Your task to perform on an android device: toggle translation in the chrome app Image 0: 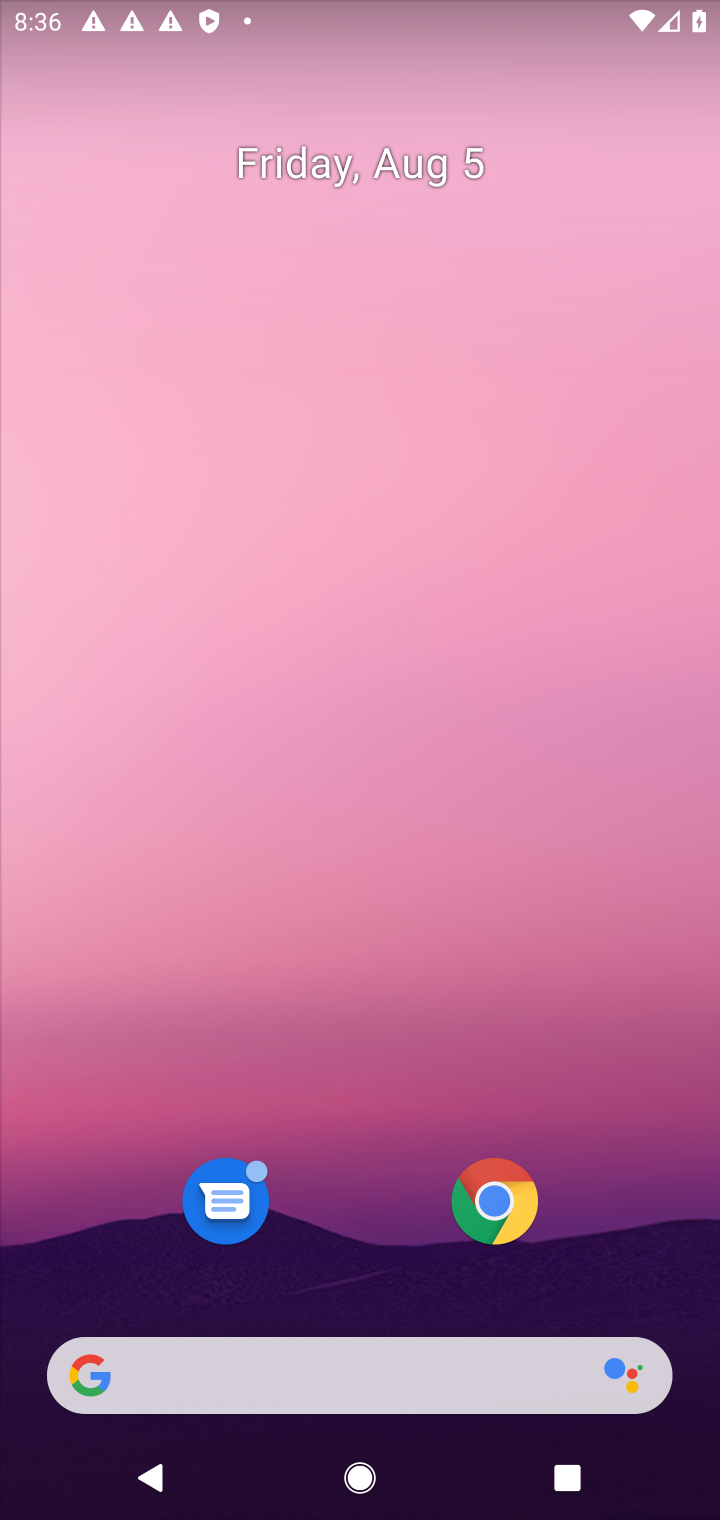
Step 0: drag from (378, 1103) to (397, 402)
Your task to perform on an android device: toggle translation in the chrome app Image 1: 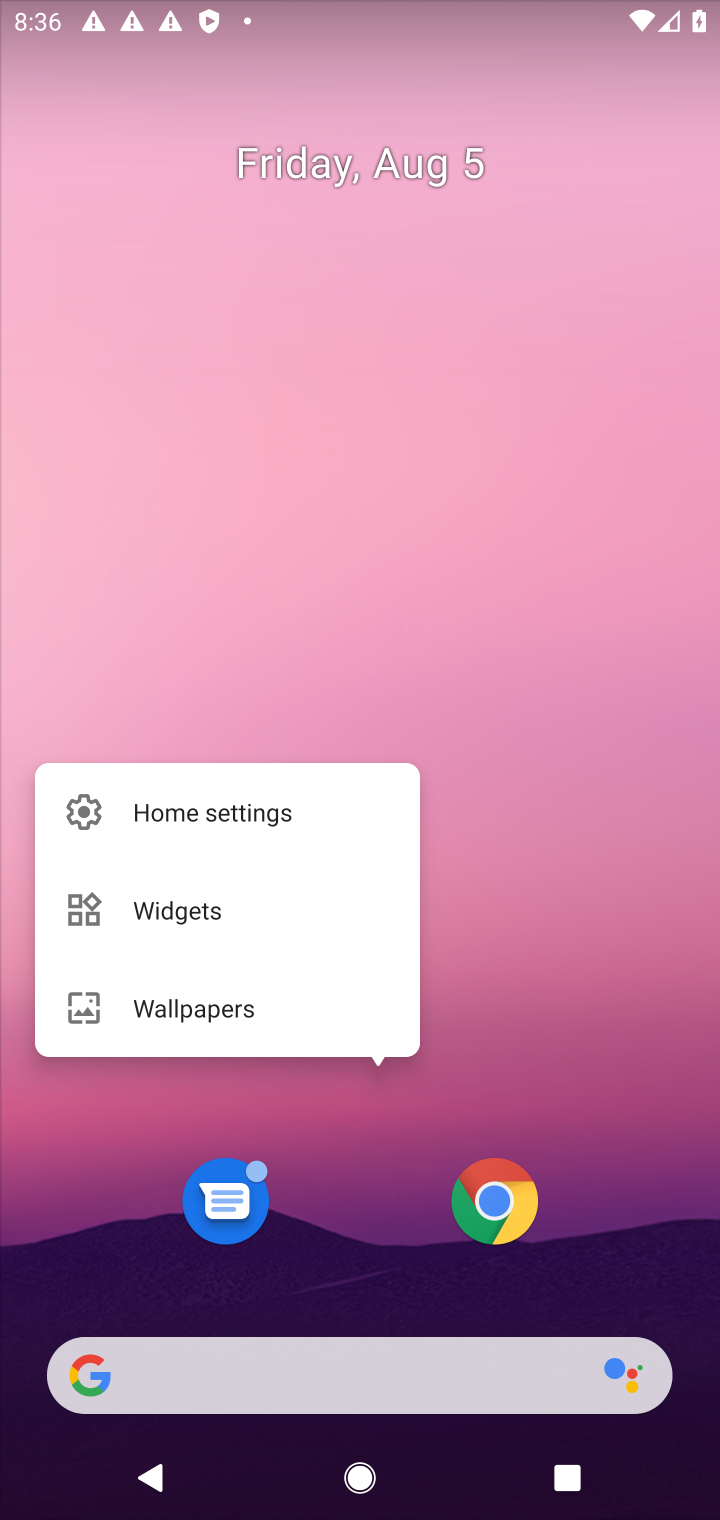
Step 1: drag from (366, 1094) to (398, 167)
Your task to perform on an android device: toggle translation in the chrome app Image 2: 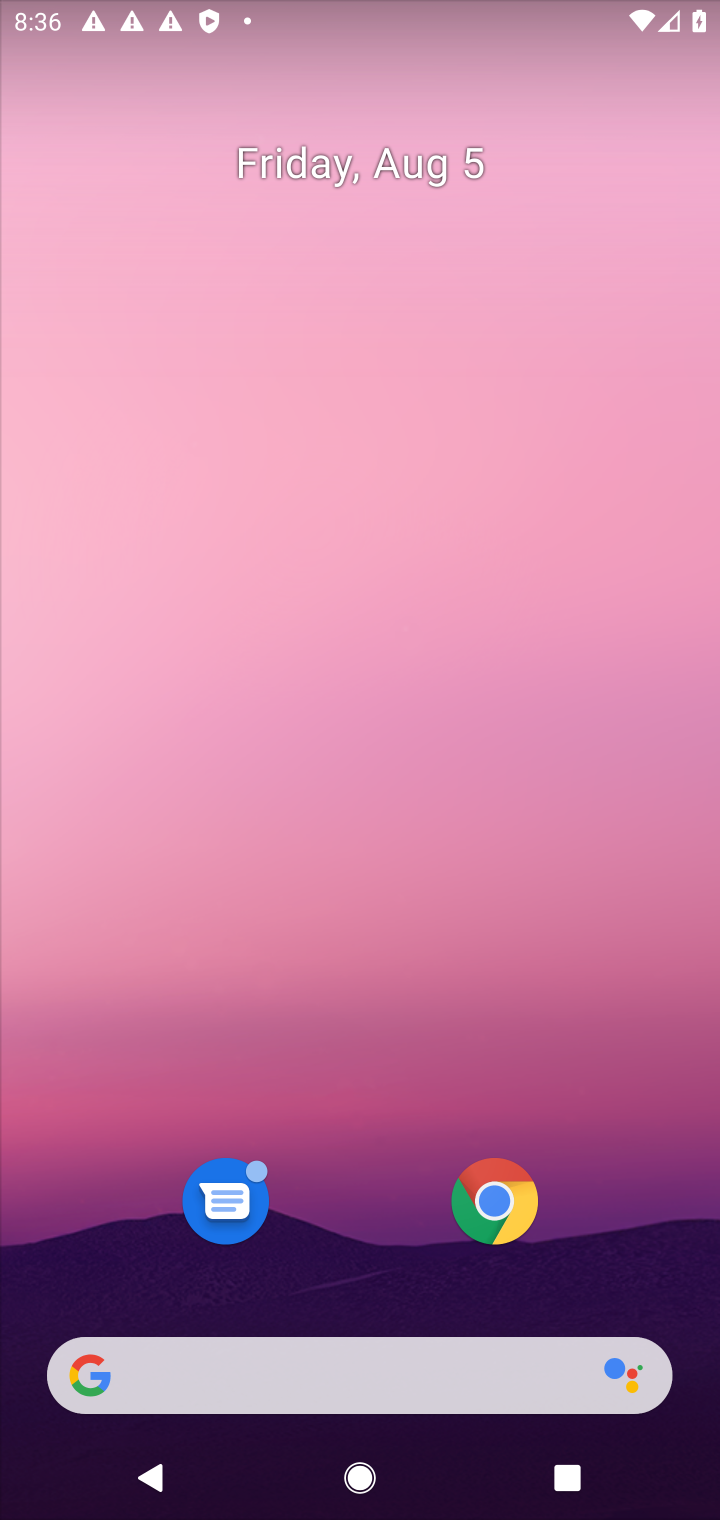
Step 2: drag from (337, 1209) to (478, 261)
Your task to perform on an android device: toggle translation in the chrome app Image 3: 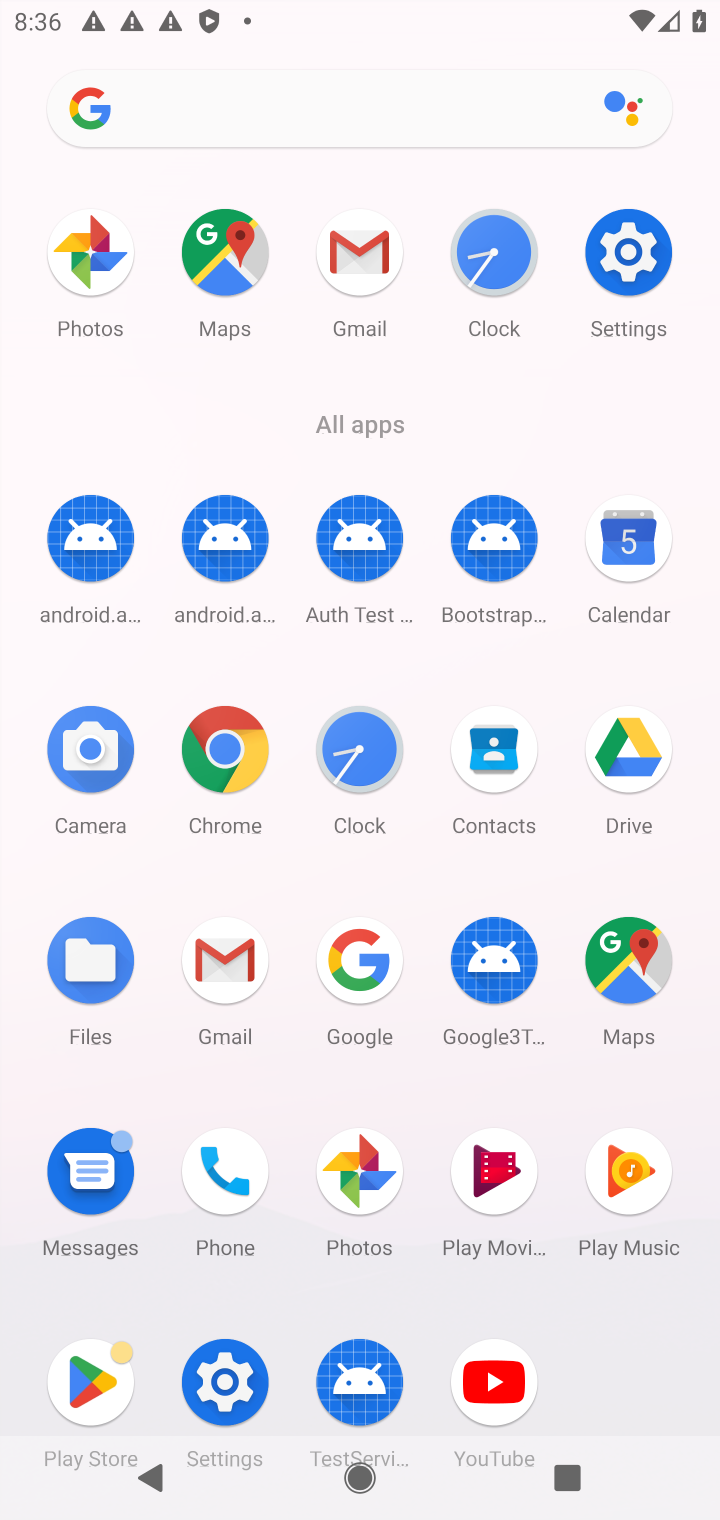
Step 3: click (231, 1364)
Your task to perform on an android device: toggle translation in the chrome app Image 4: 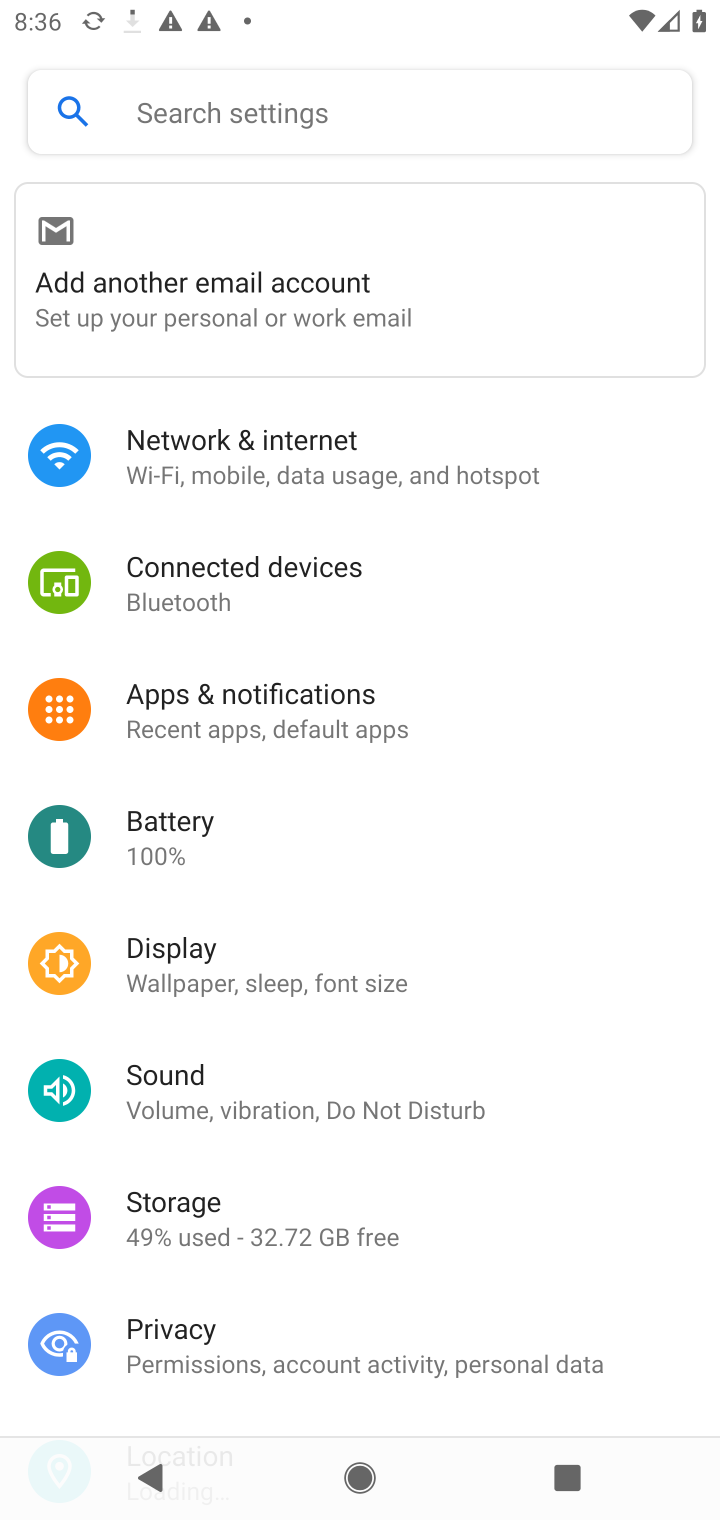
Step 4: drag from (257, 1215) to (301, 574)
Your task to perform on an android device: toggle translation in the chrome app Image 5: 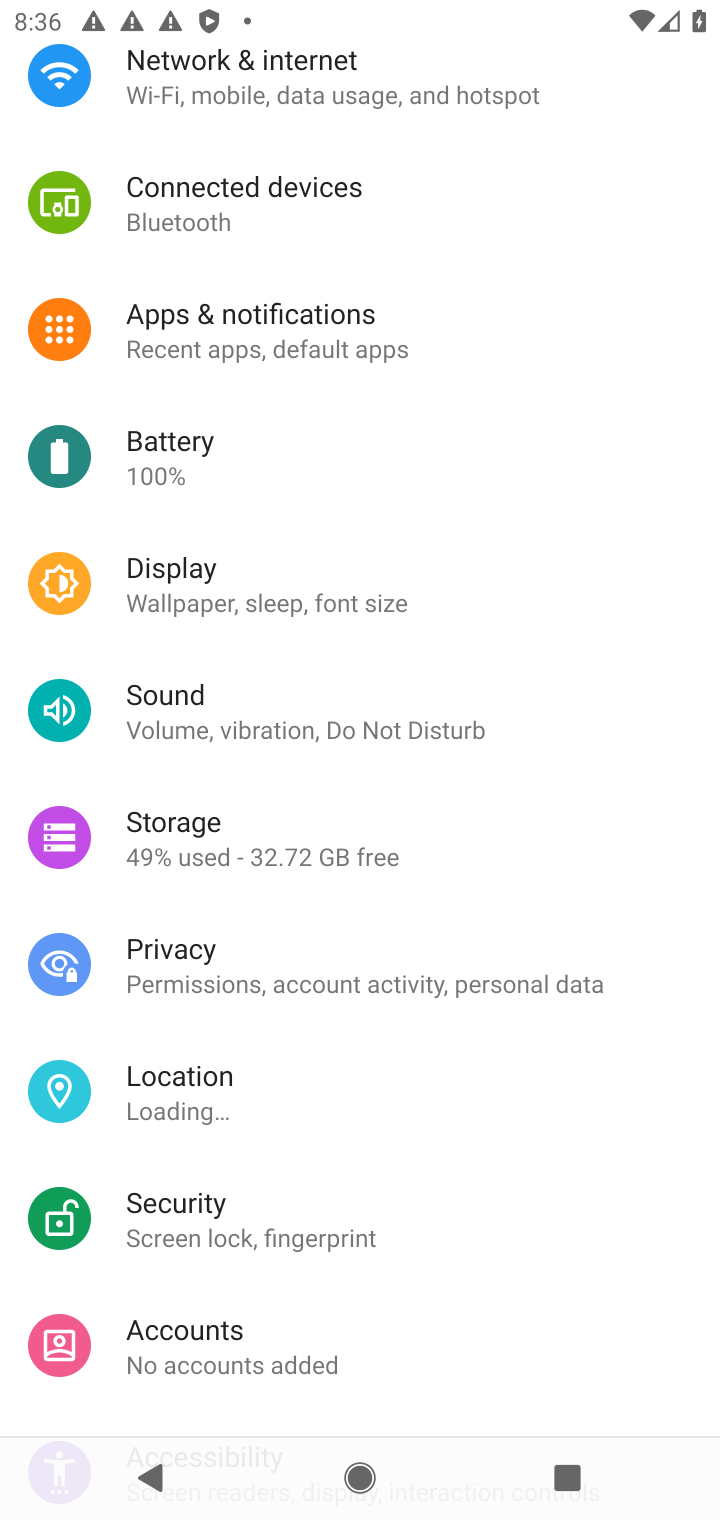
Step 5: drag from (309, 1013) to (432, 529)
Your task to perform on an android device: toggle translation in the chrome app Image 6: 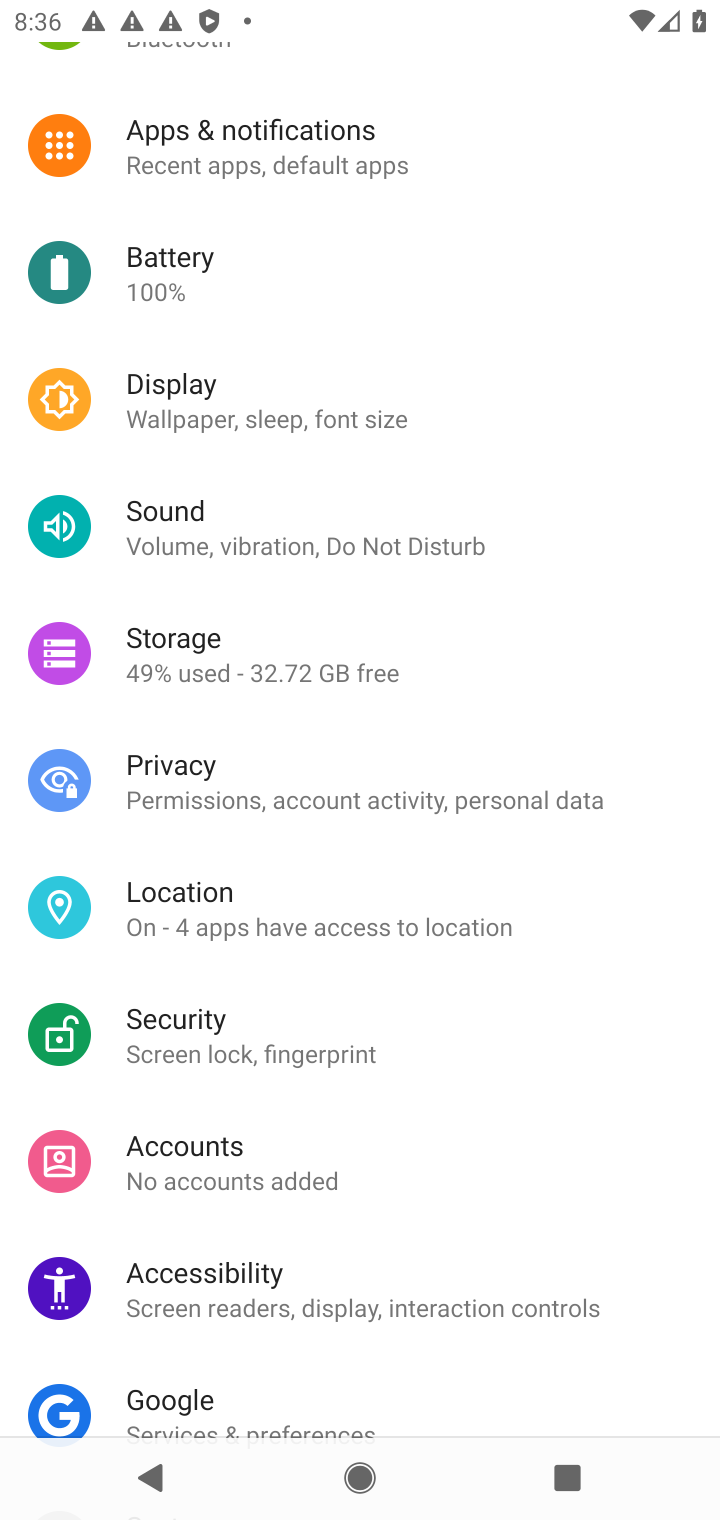
Step 6: press home button
Your task to perform on an android device: toggle translation in the chrome app Image 7: 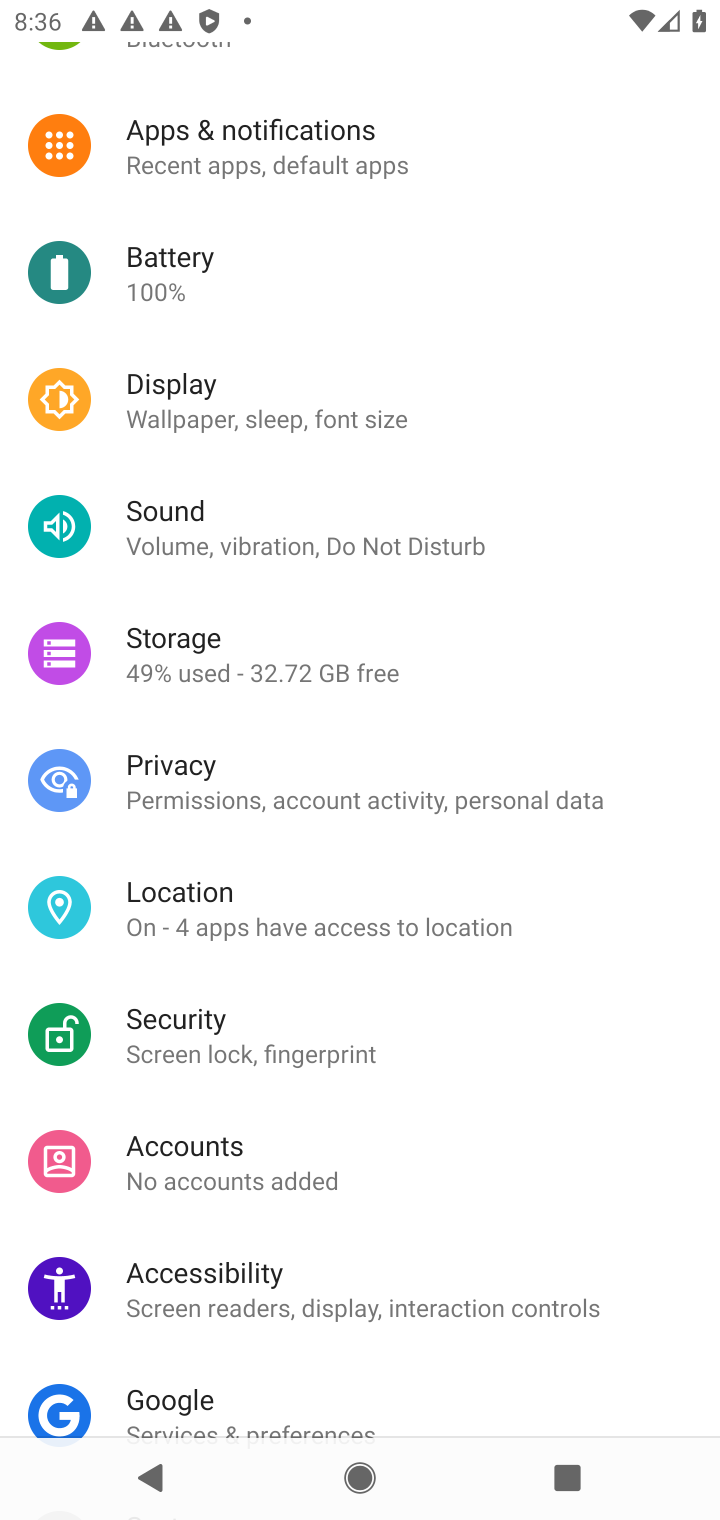
Step 7: drag from (350, 1192) to (429, 346)
Your task to perform on an android device: toggle translation in the chrome app Image 8: 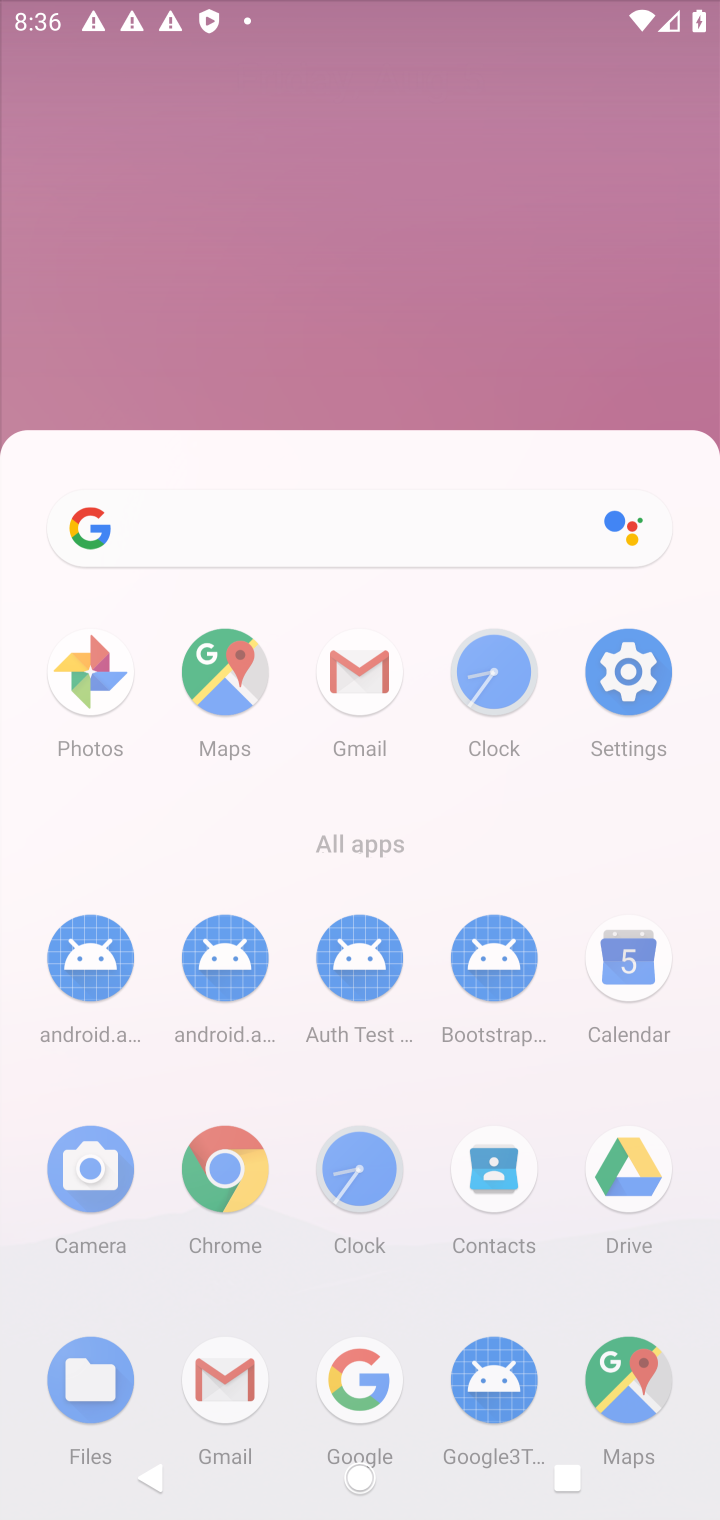
Step 8: drag from (336, 1241) to (331, 230)
Your task to perform on an android device: toggle translation in the chrome app Image 9: 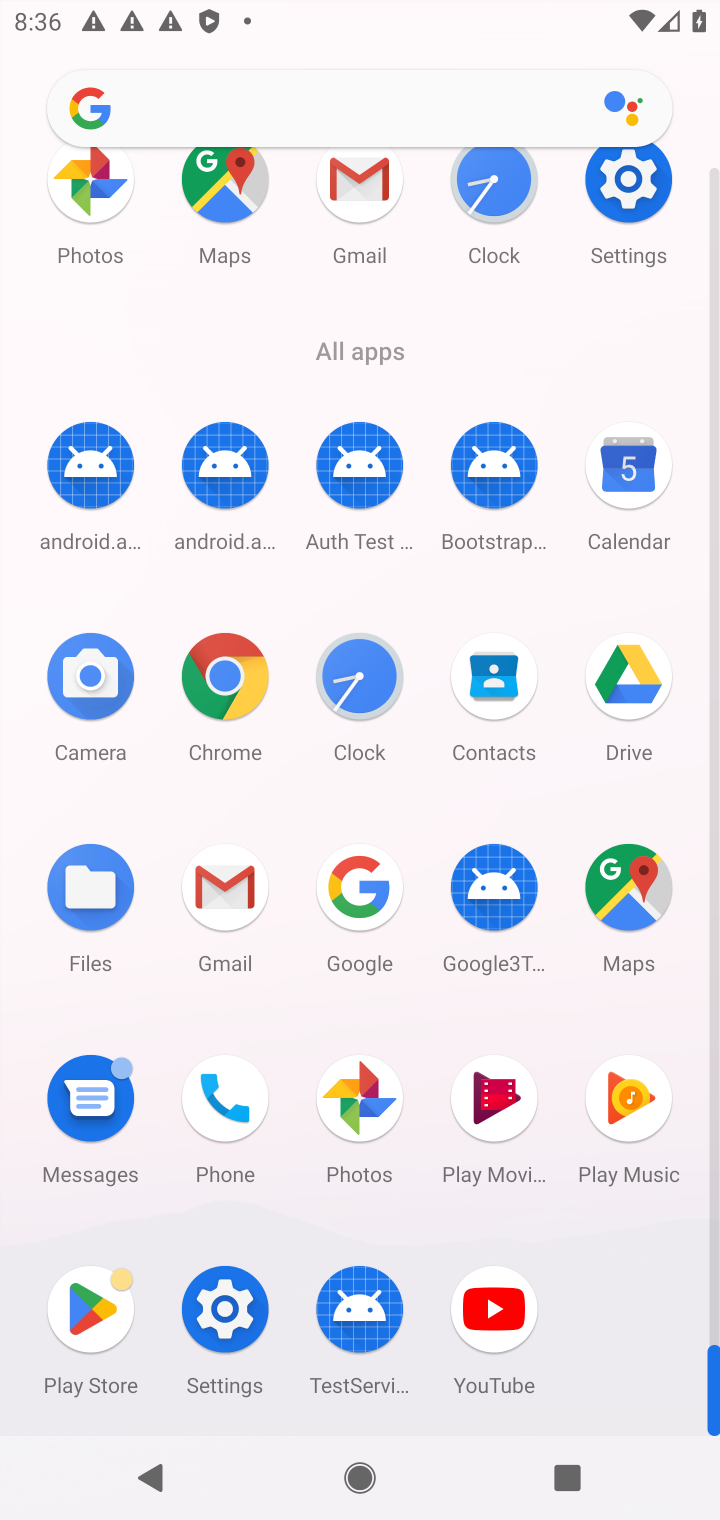
Step 9: click (351, 1083)
Your task to perform on an android device: toggle translation in the chrome app Image 10: 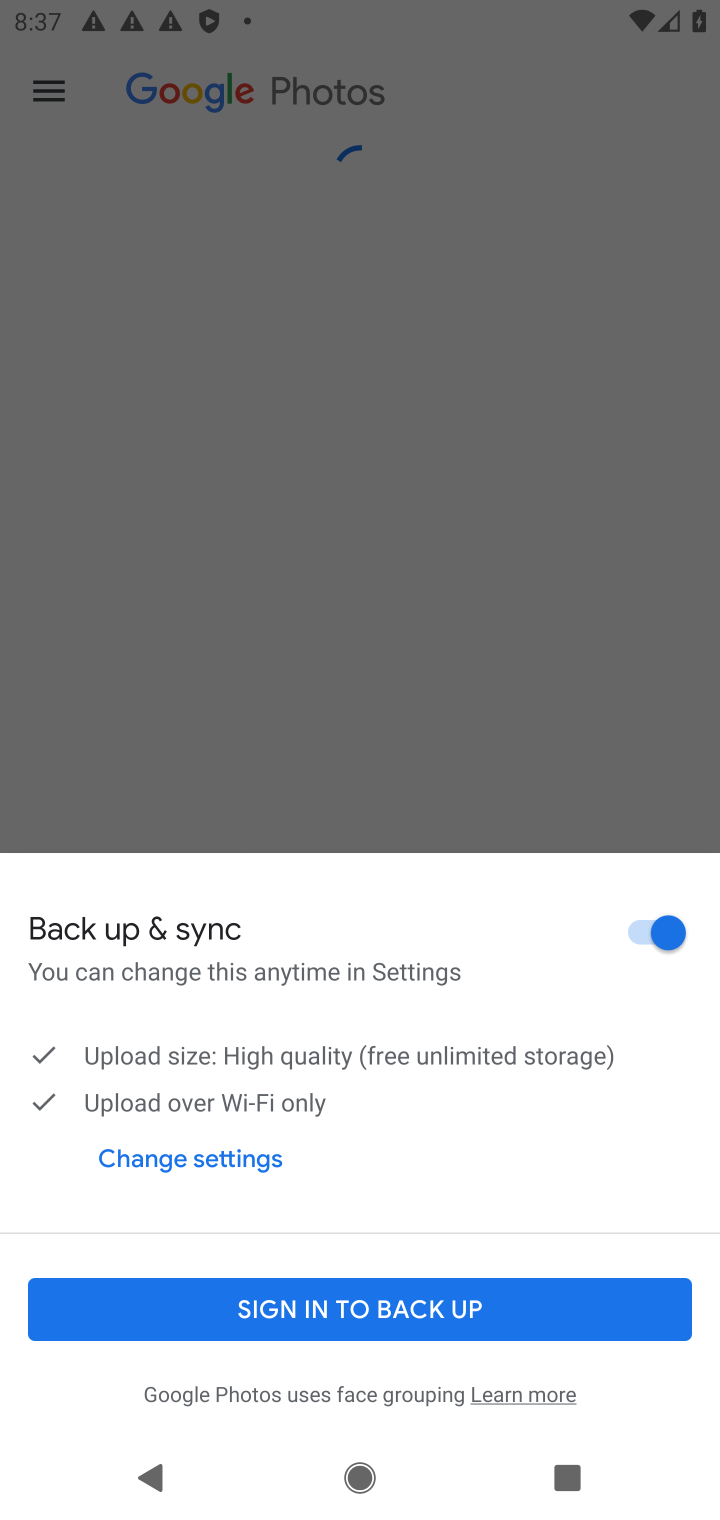
Step 10: press home button
Your task to perform on an android device: toggle translation in the chrome app Image 11: 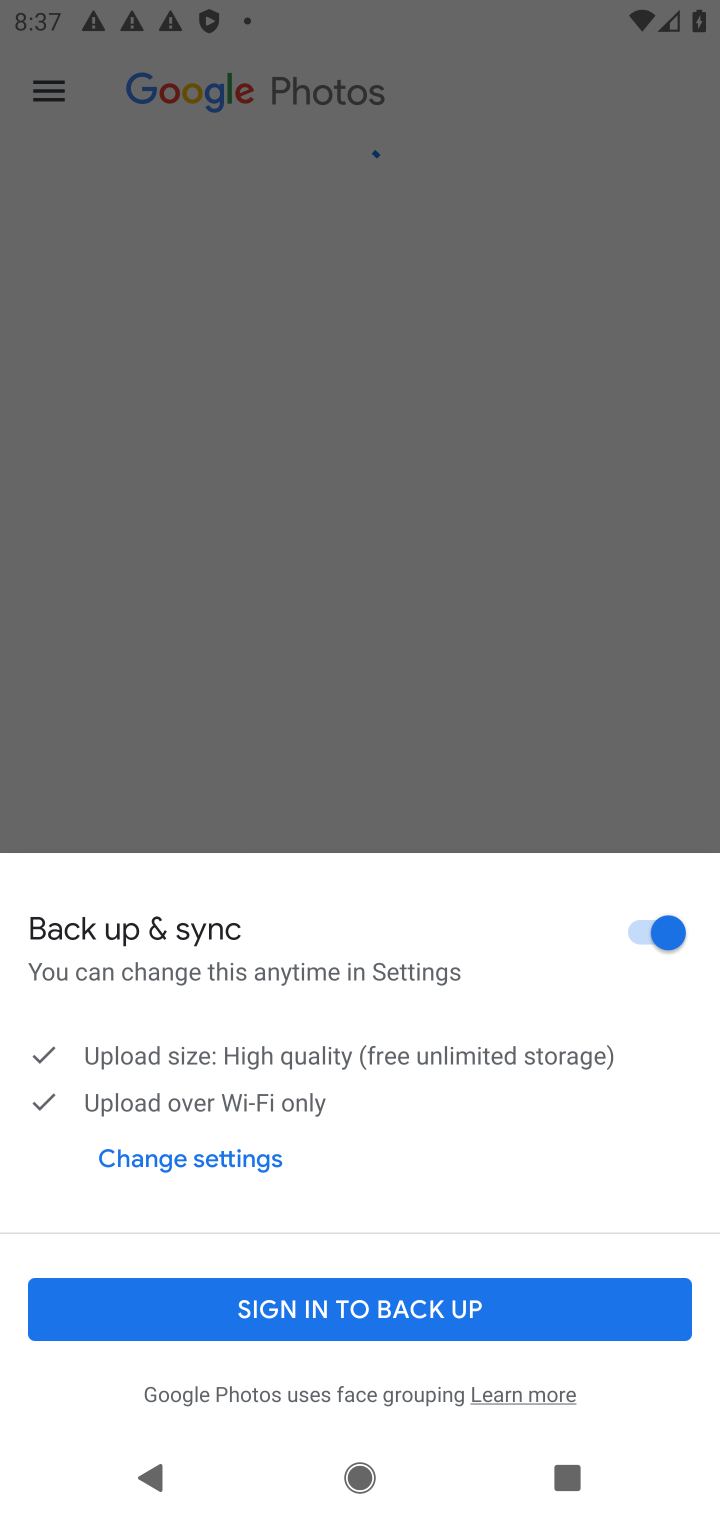
Step 11: click (295, 317)
Your task to perform on an android device: toggle translation in the chrome app Image 12: 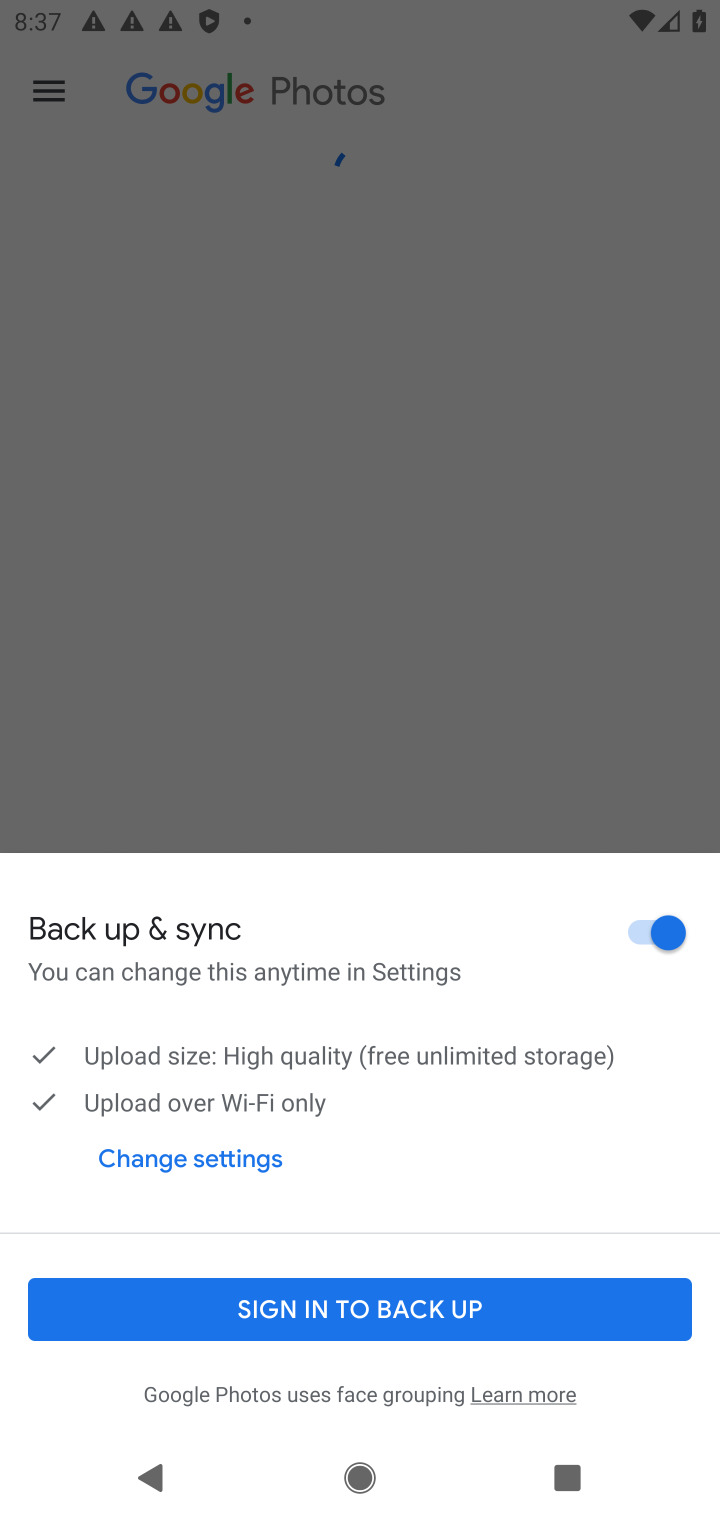
Step 12: press home button
Your task to perform on an android device: toggle translation in the chrome app Image 13: 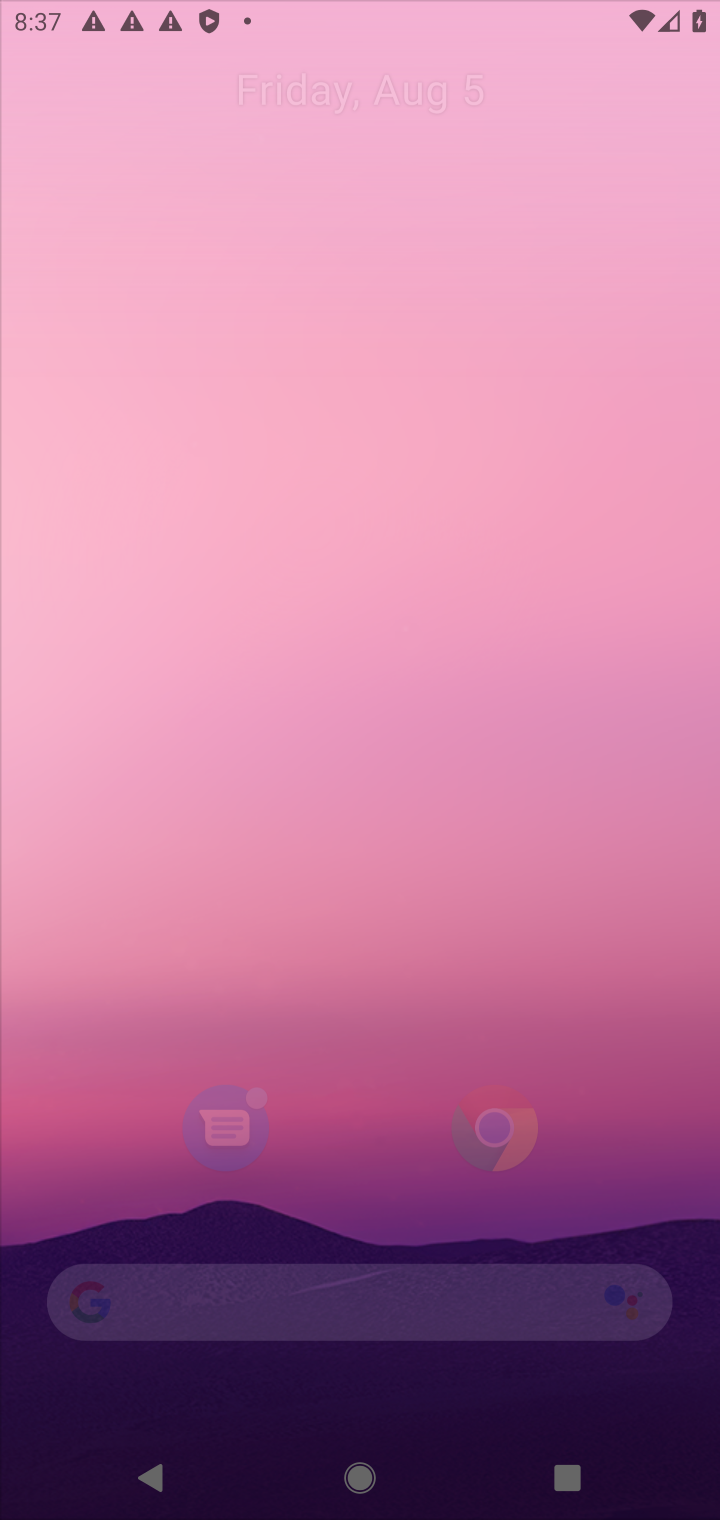
Step 13: click (388, 84)
Your task to perform on an android device: toggle translation in the chrome app Image 14: 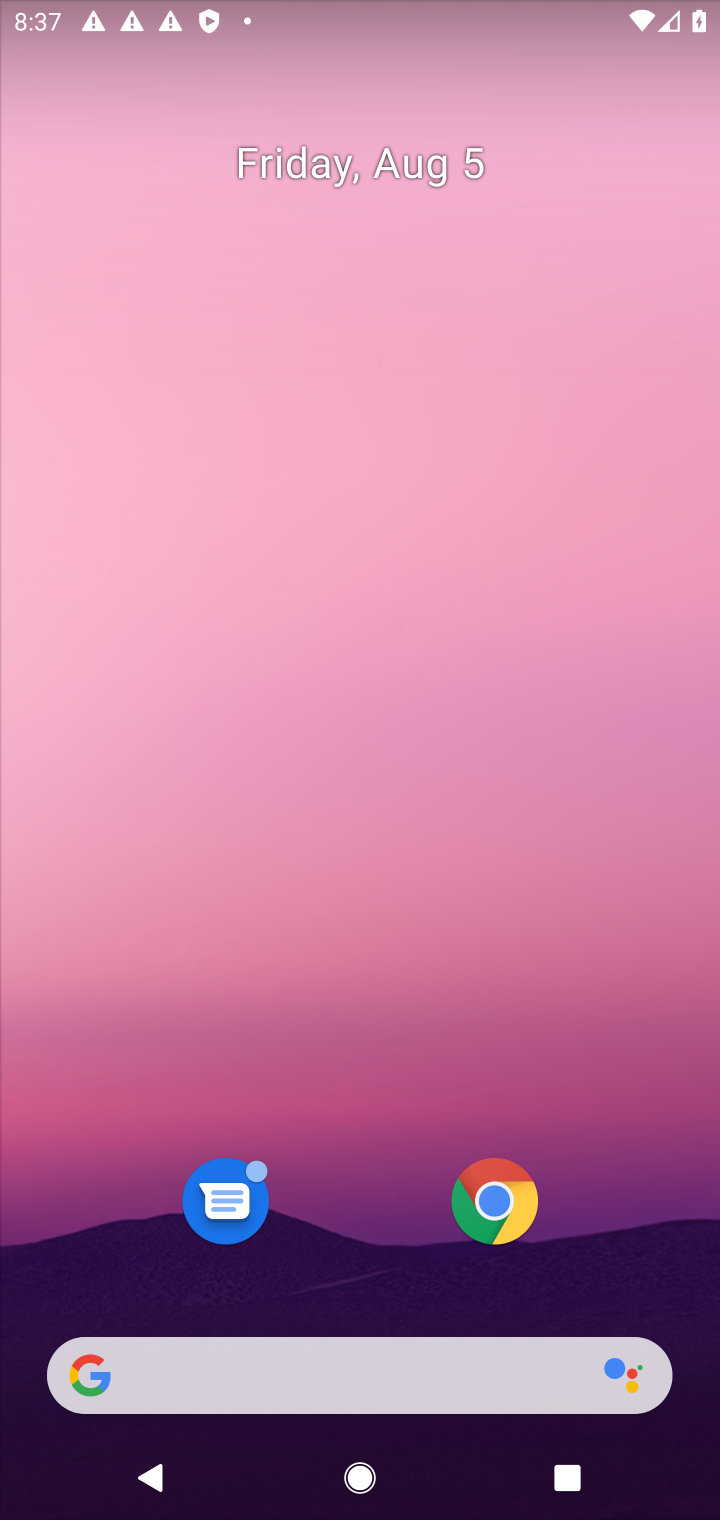
Step 14: click (459, 92)
Your task to perform on an android device: toggle translation in the chrome app Image 15: 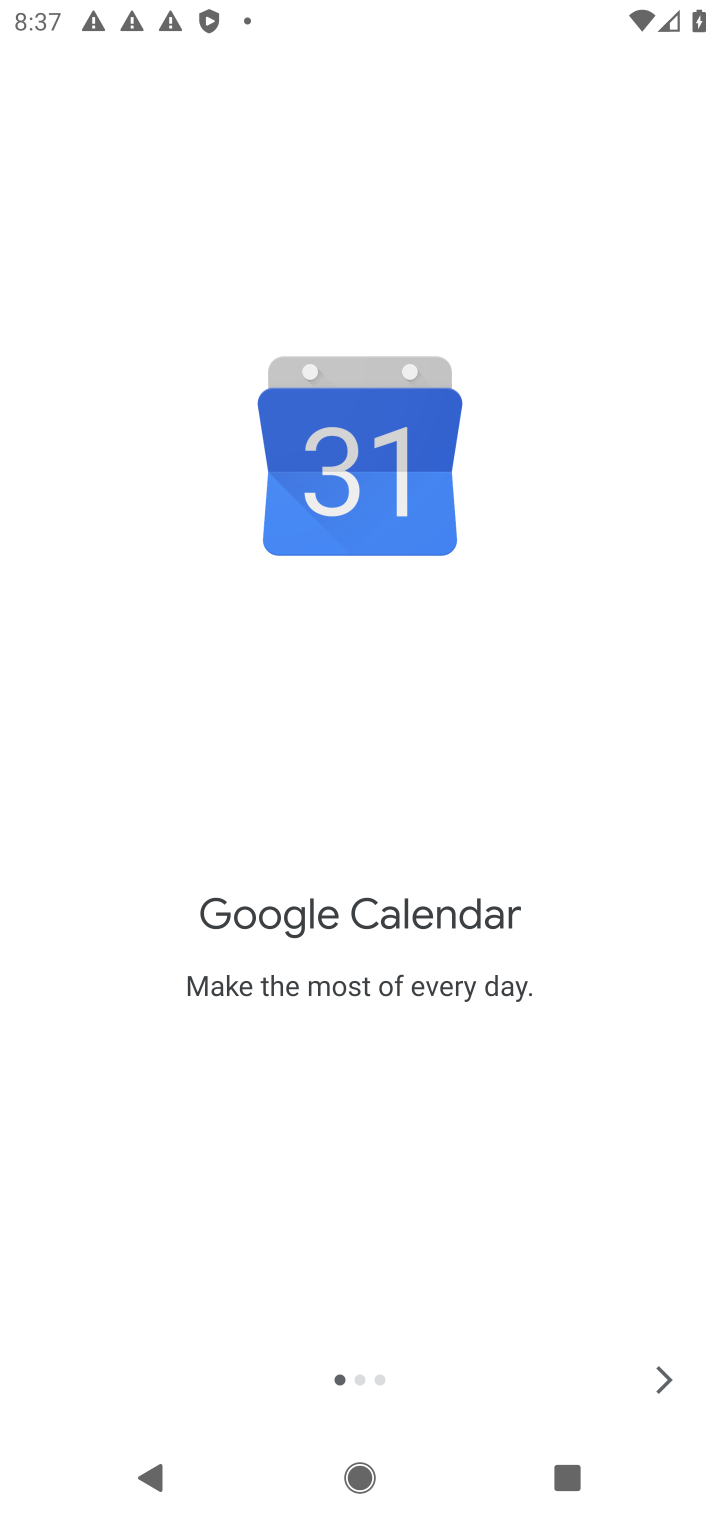
Step 15: press back button
Your task to perform on an android device: toggle translation in the chrome app Image 16: 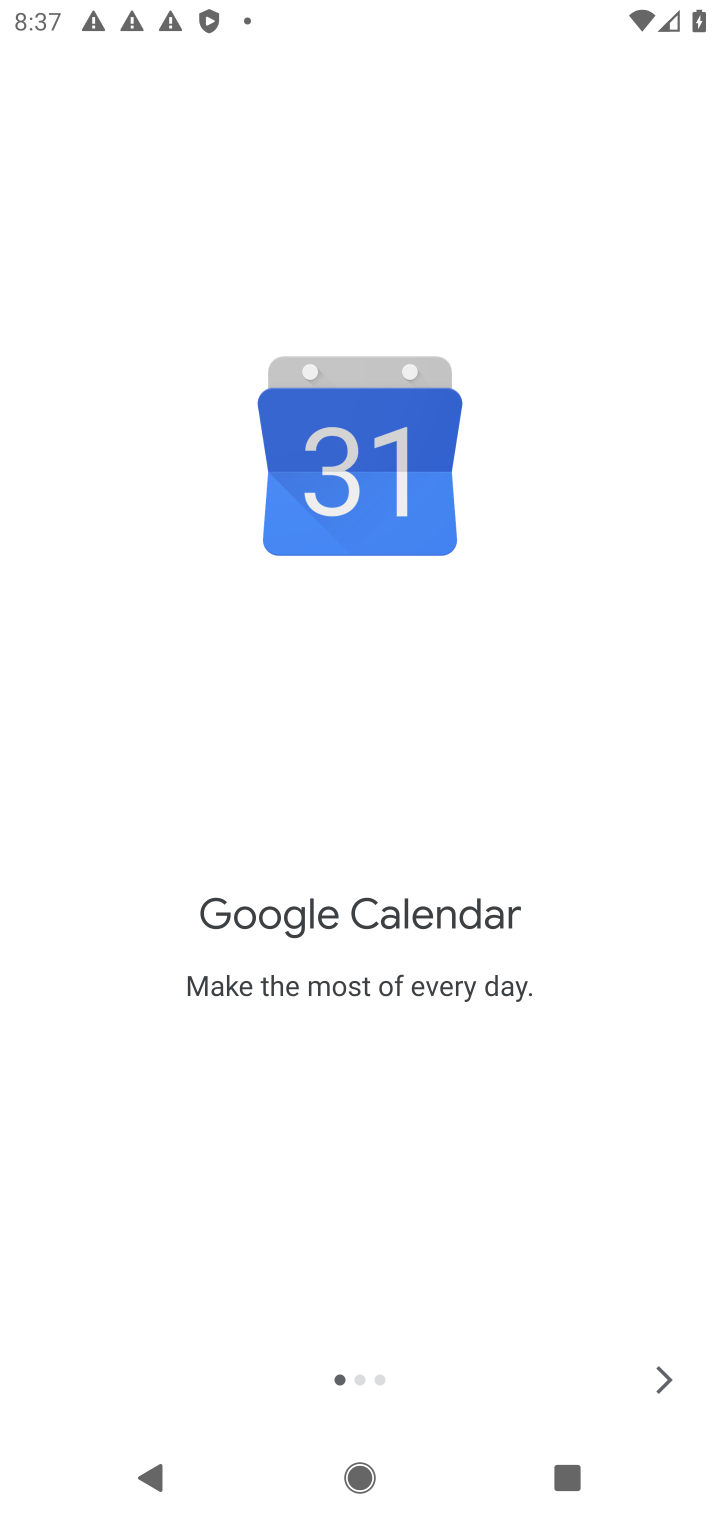
Step 16: press home button
Your task to perform on an android device: toggle translation in the chrome app Image 17: 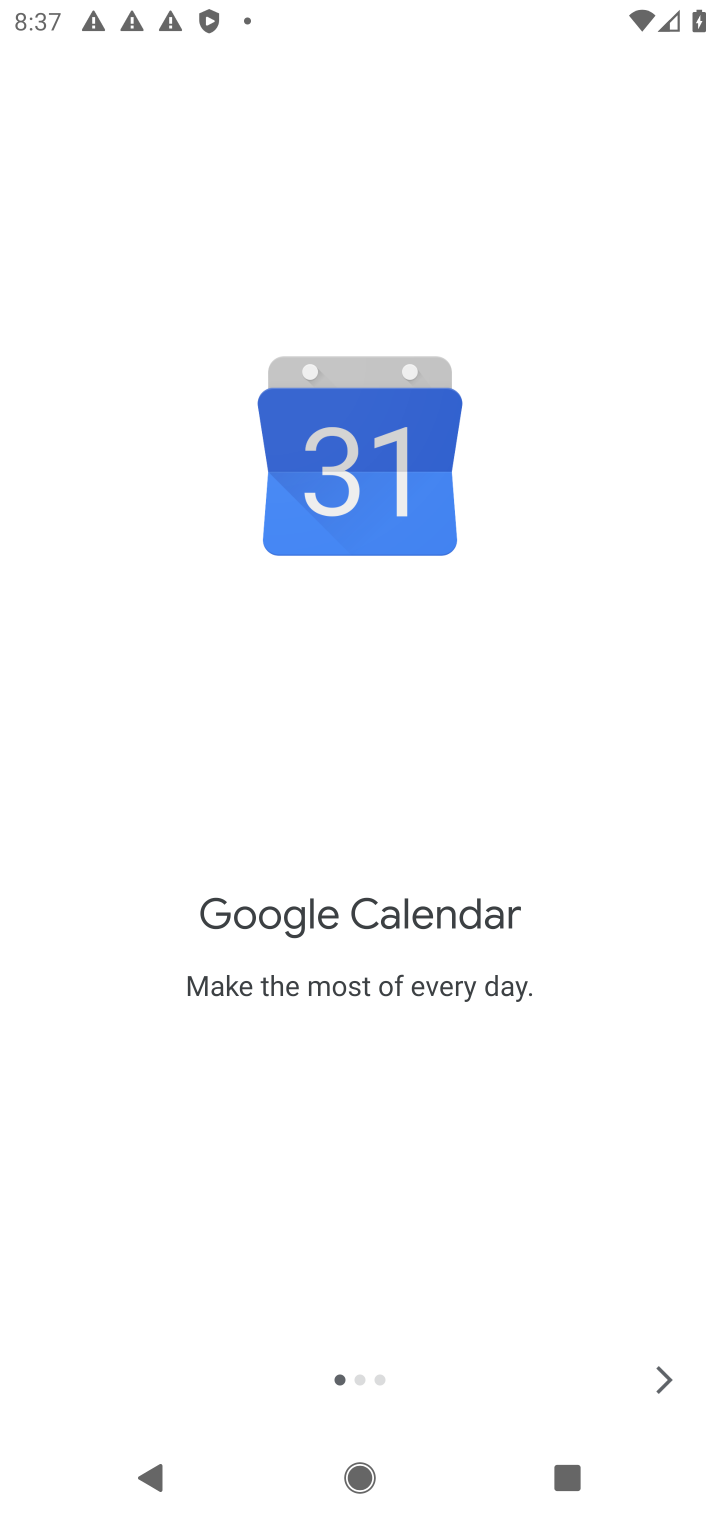
Step 17: drag from (426, 26) to (322, 31)
Your task to perform on an android device: toggle translation in the chrome app Image 18: 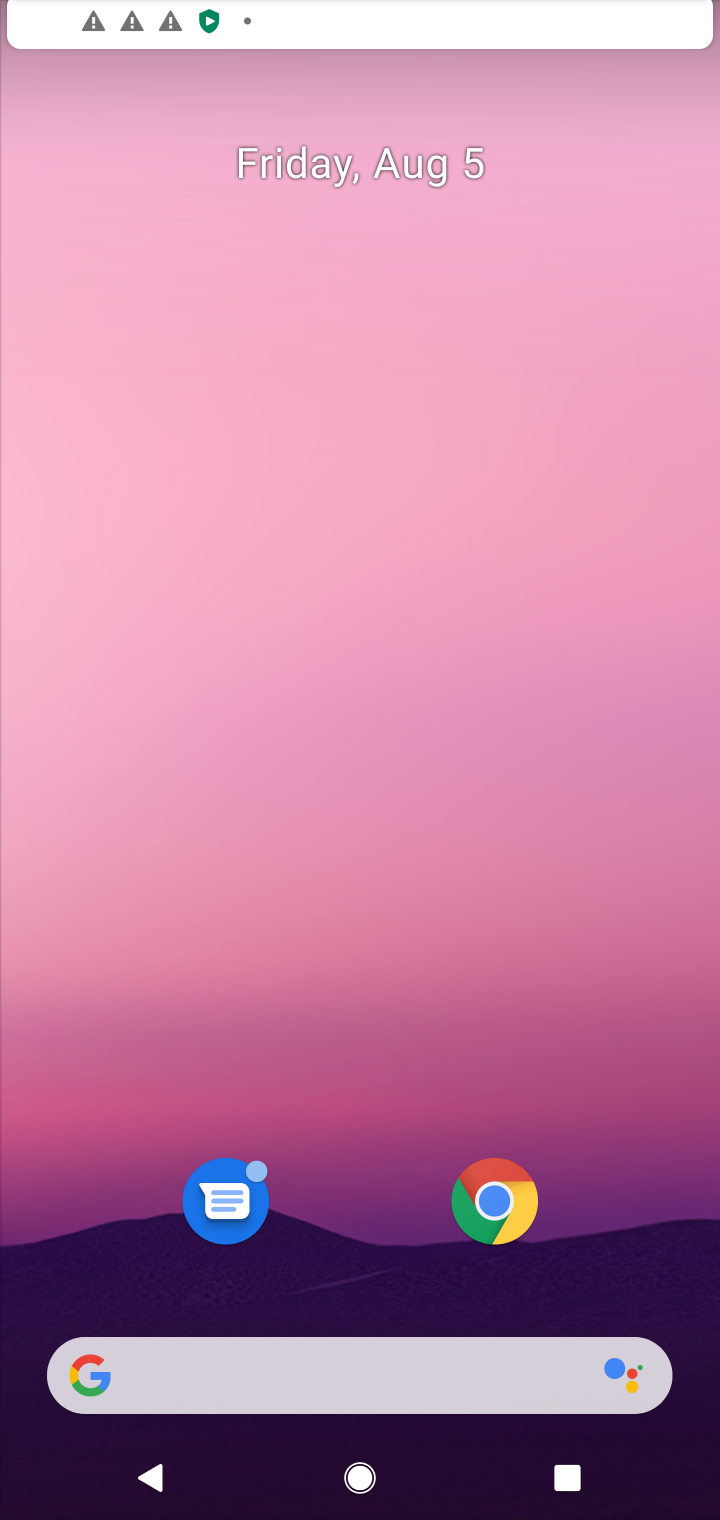
Step 18: drag from (435, 771) to (490, 97)
Your task to perform on an android device: toggle translation in the chrome app Image 19: 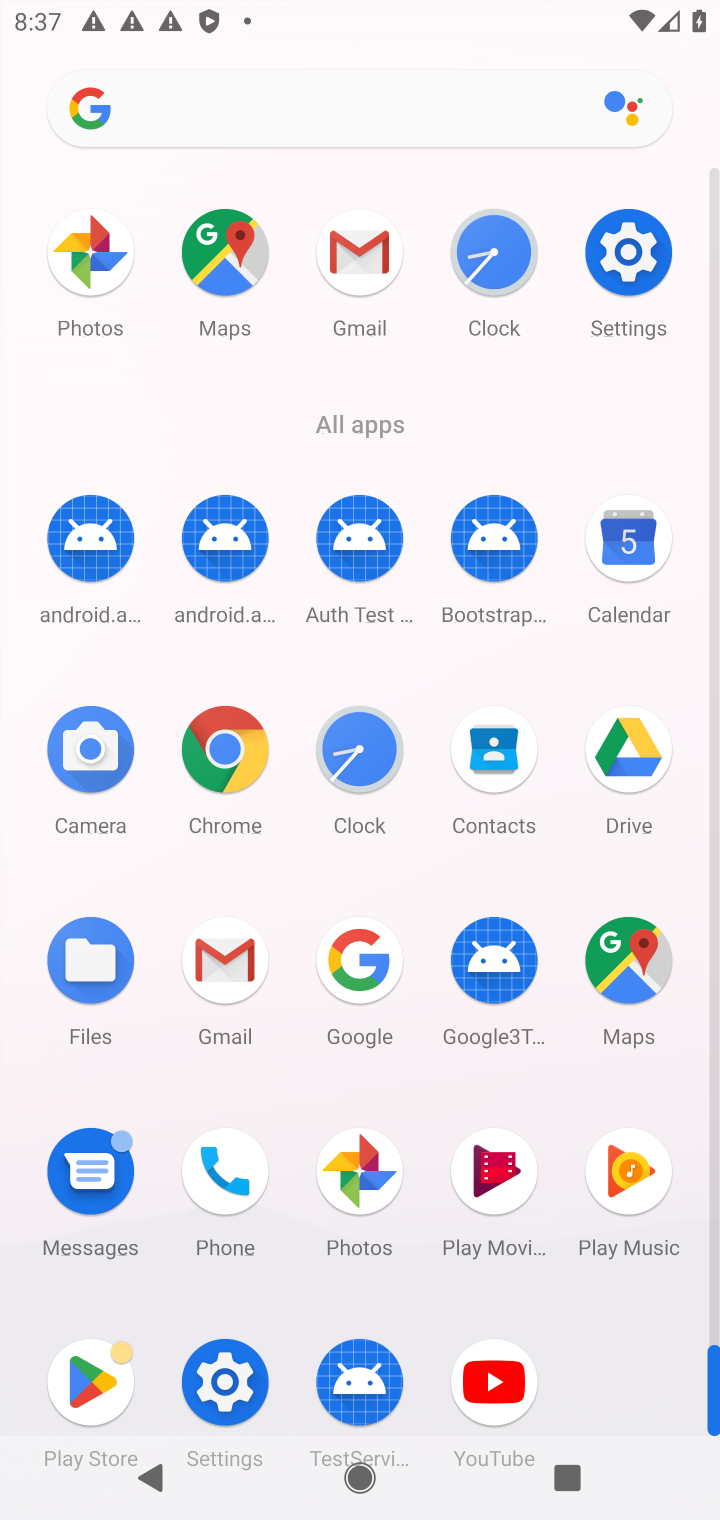
Step 19: click (229, 740)
Your task to perform on an android device: toggle translation in the chrome app Image 20: 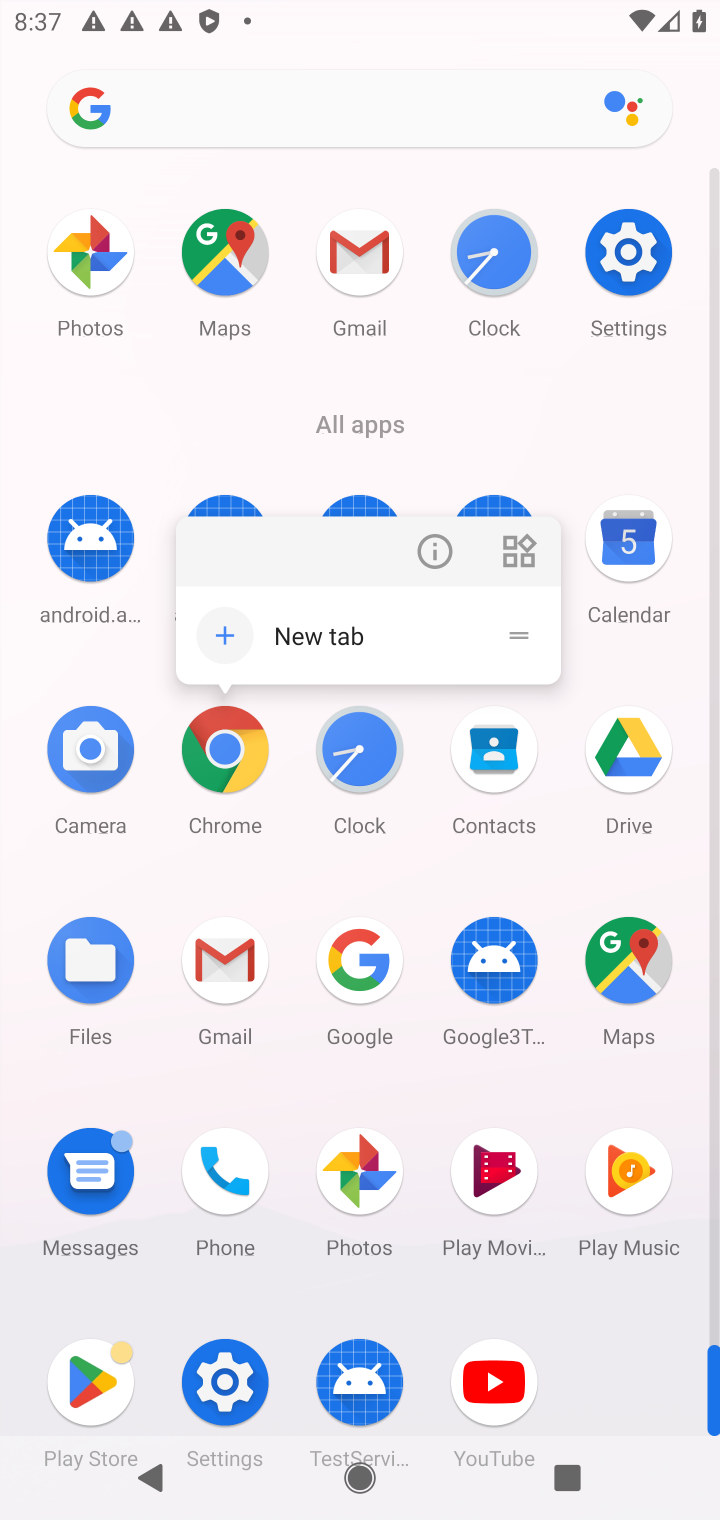
Step 20: click (438, 563)
Your task to perform on an android device: toggle translation in the chrome app Image 21: 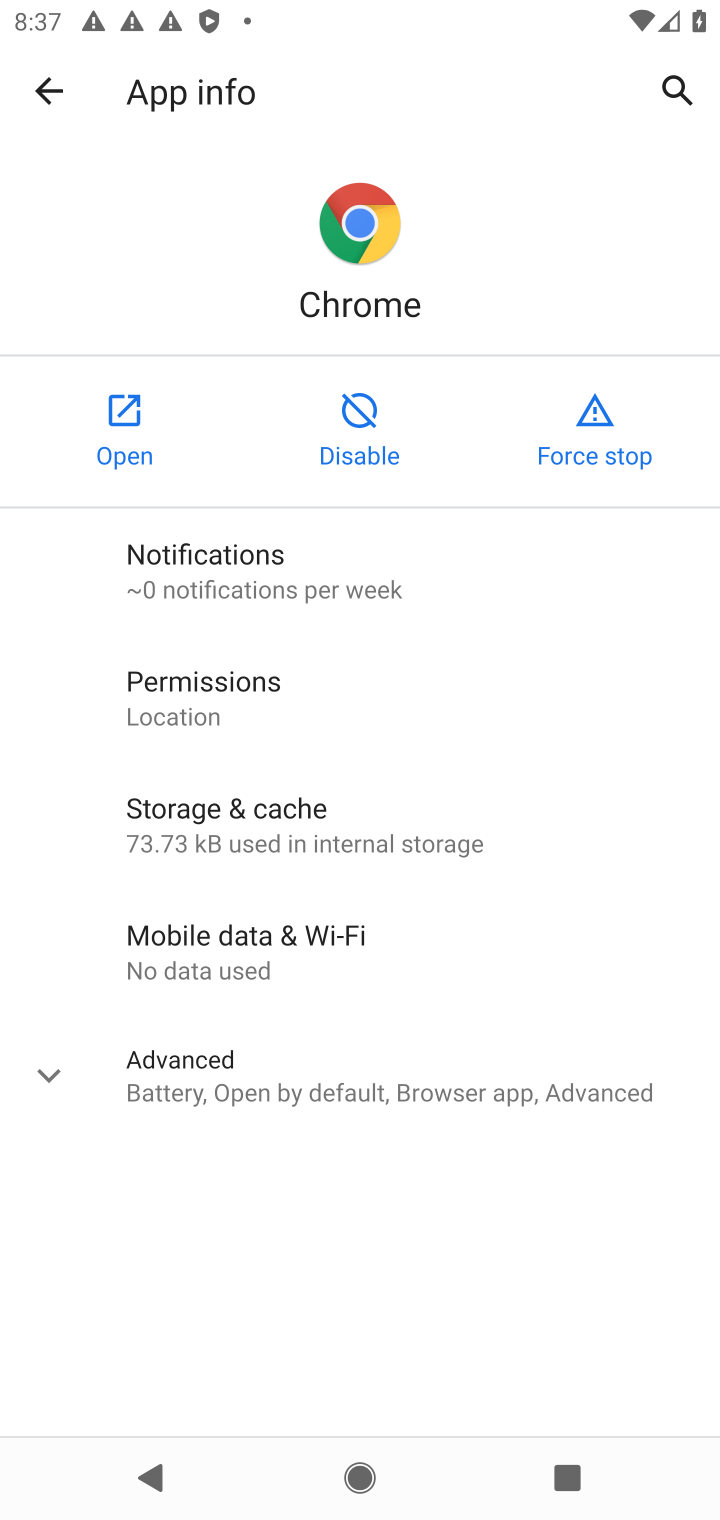
Step 21: click (128, 426)
Your task to perform on an android device: toggle translation in the chrome app Image 22: 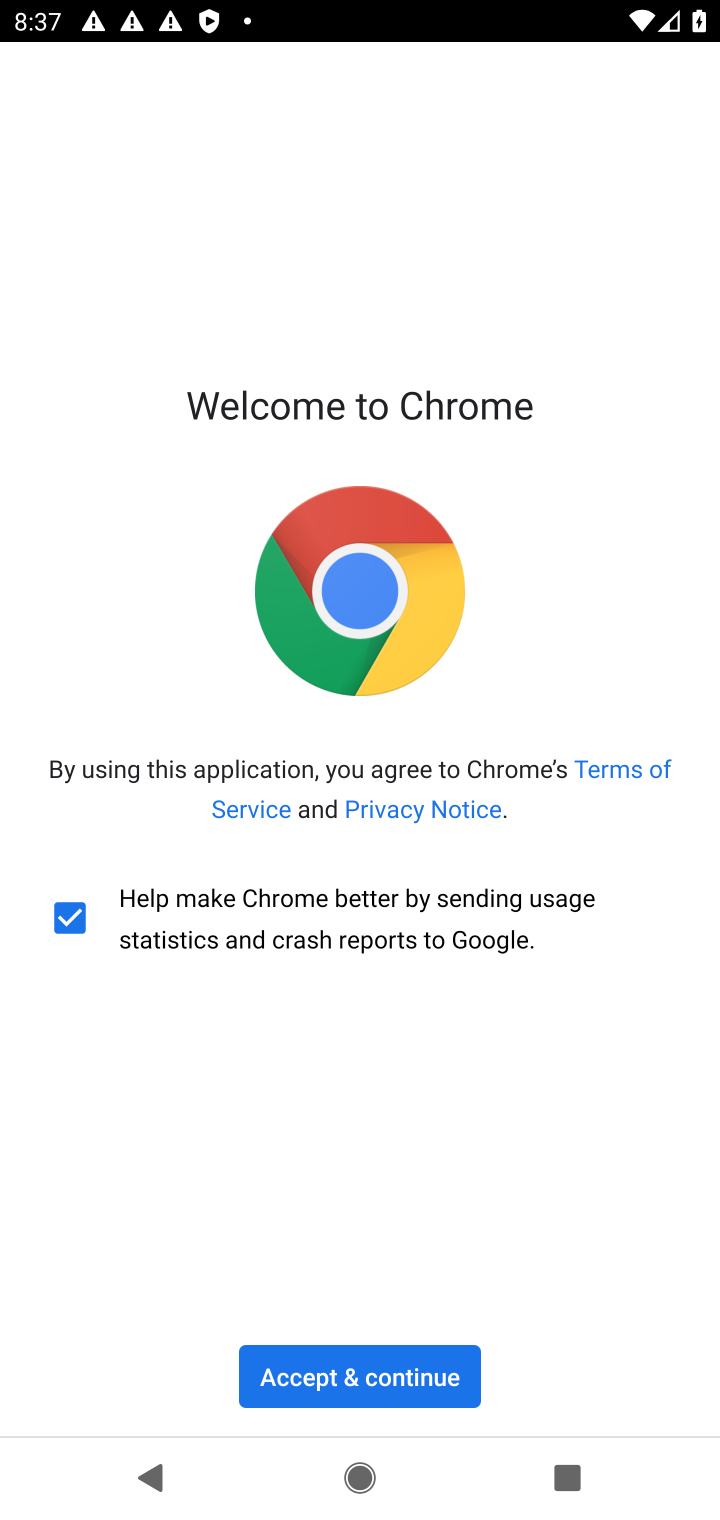
Step 22: click (358, 1382)
Your task to perform on an android device: toggle translation in the chrome app Image 23: 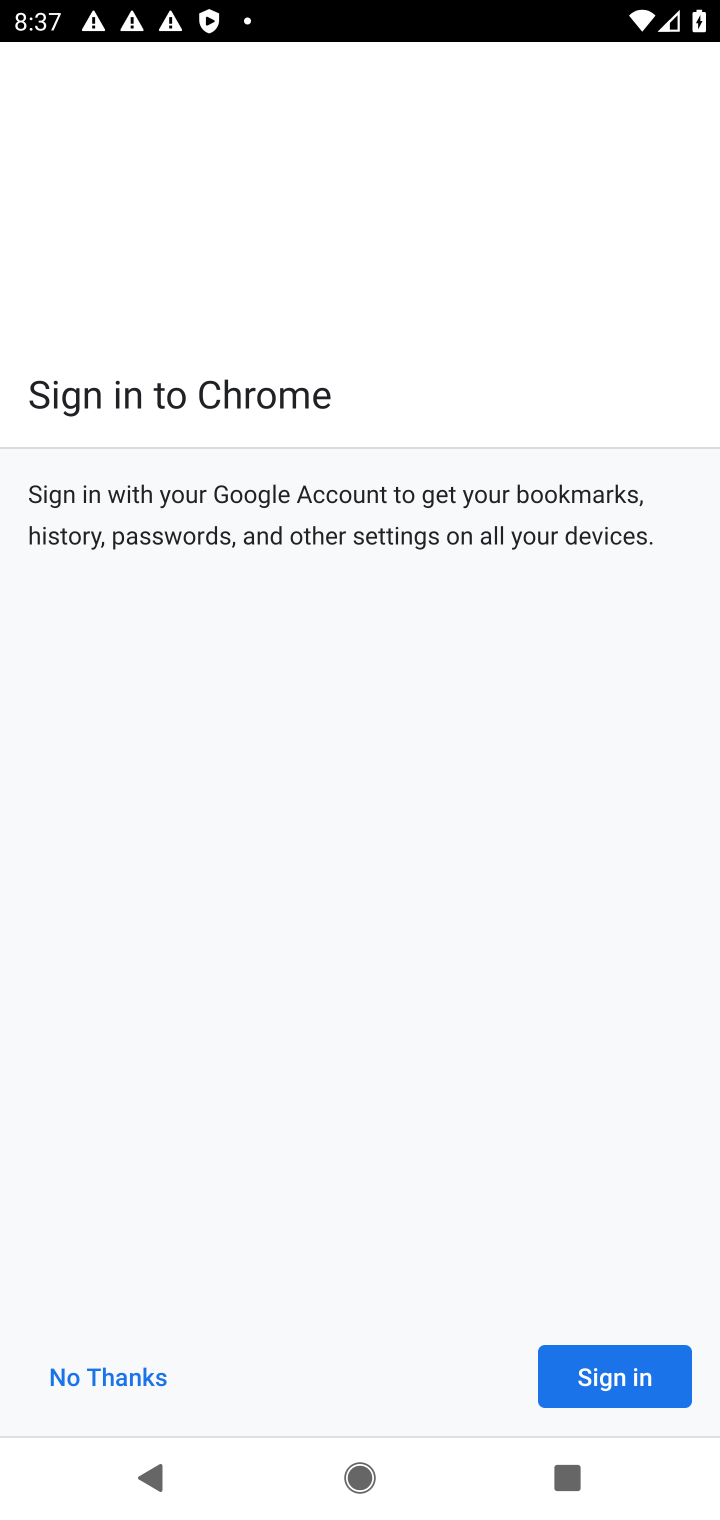
Step 23: click (115, 1374)
Your task to perform on an android device: toggle translation in the chrome app Image 24: 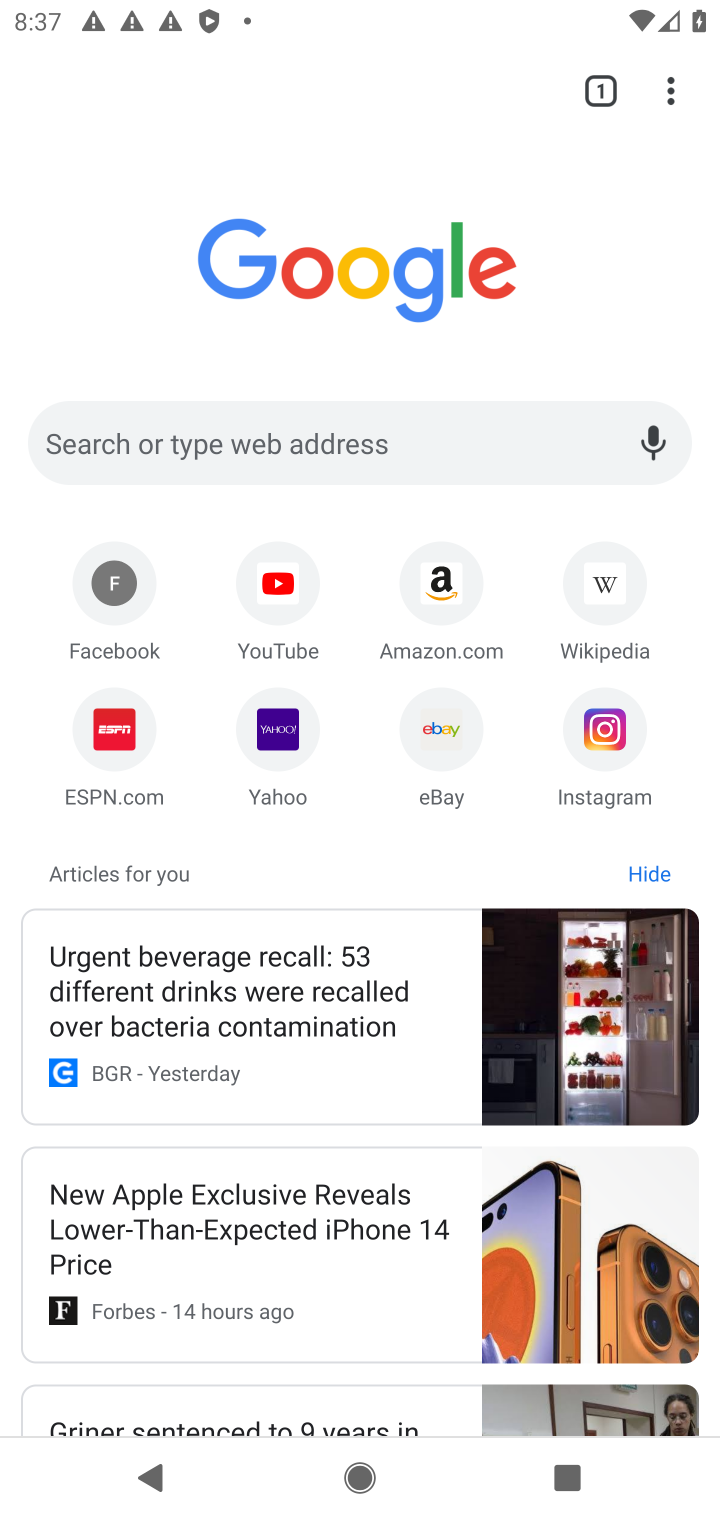
Step 24: drag from (660, 141) to (500, 772)
Your task to perform on an android device: toggle translation in the chrome app Image 25: 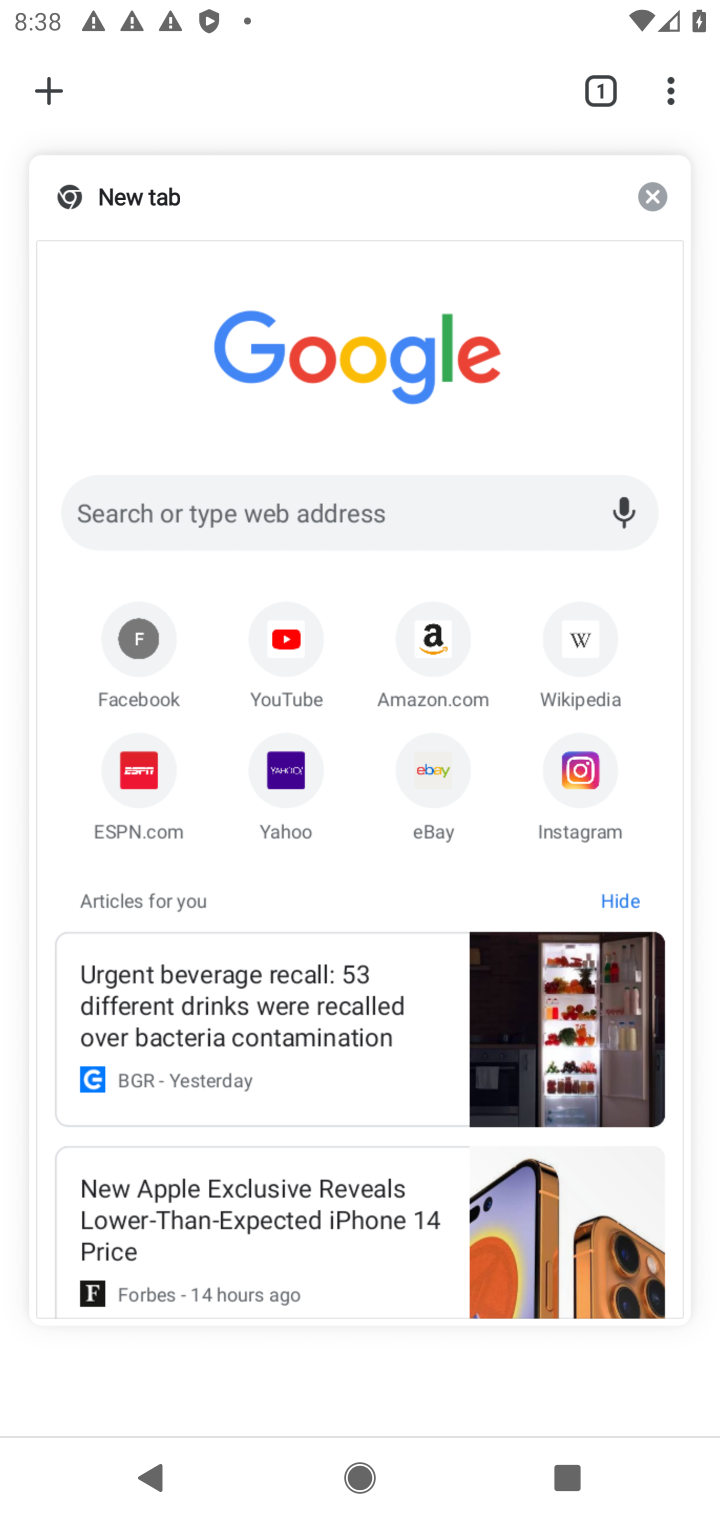
Step 25: click (387, 311)
Your task to perform on an android device: toggle translation in the chrome app Image 26: 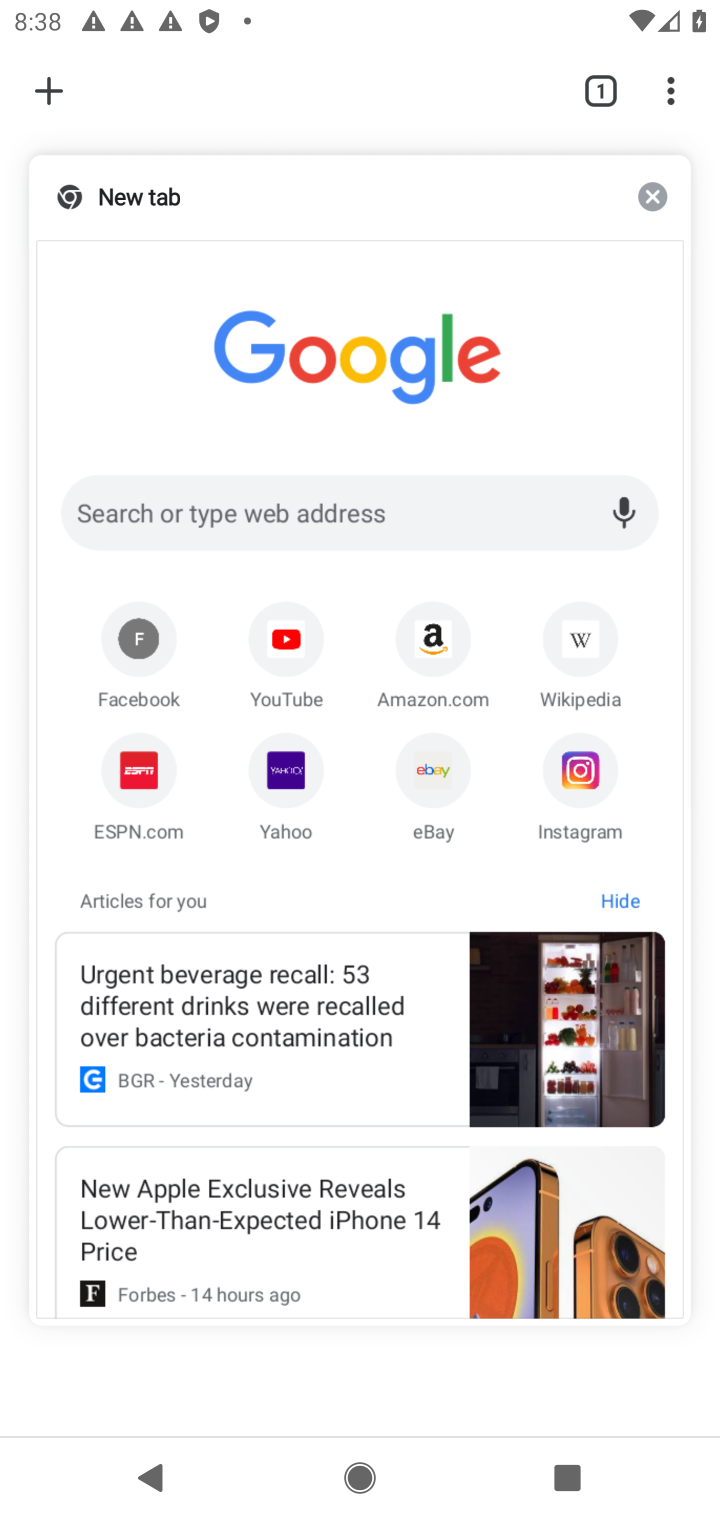
Step 26: click (672, 72)
Your task to perform on an android device: toggle translation in the chrome app Image 27: 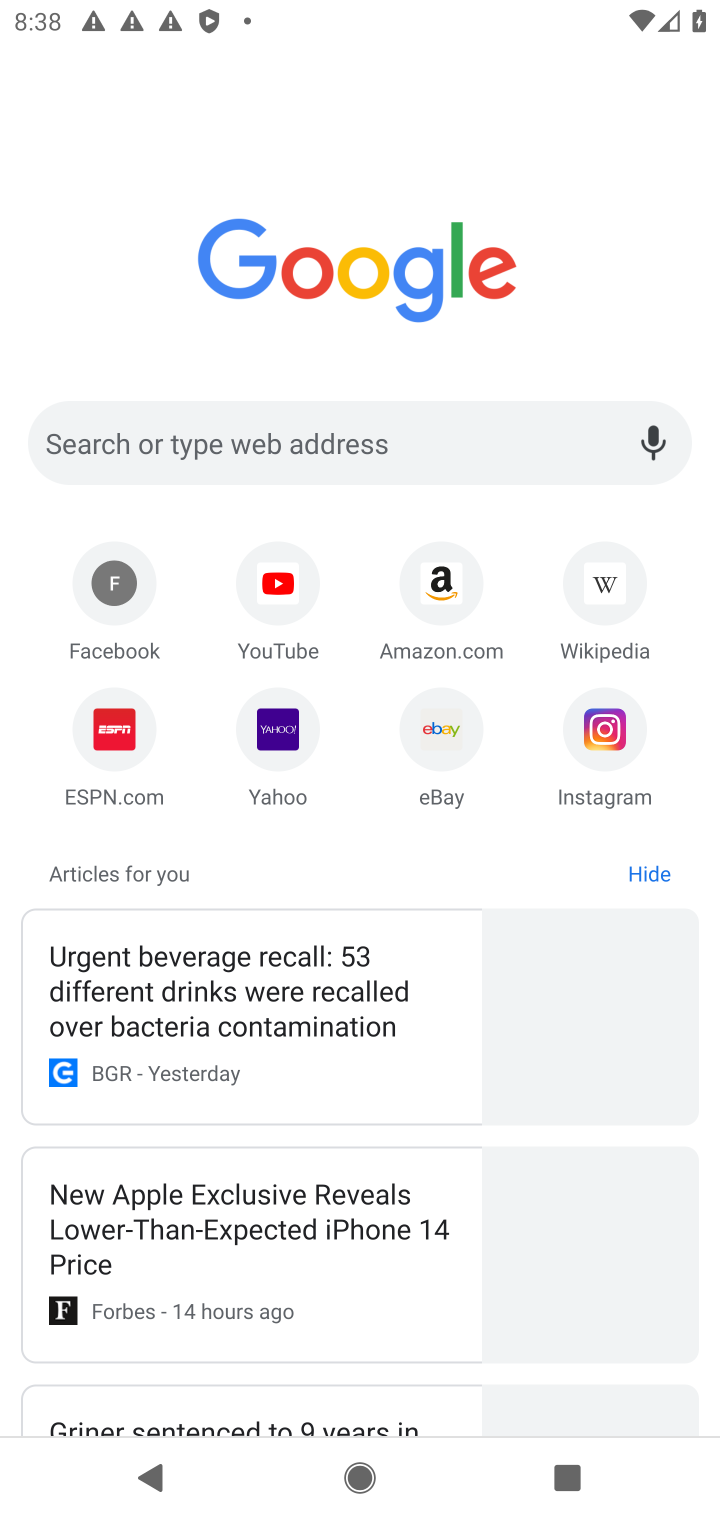
Step 27: click (681, 83)
Your task to perform on an android device: toggle translation in the chrome app Image 28: 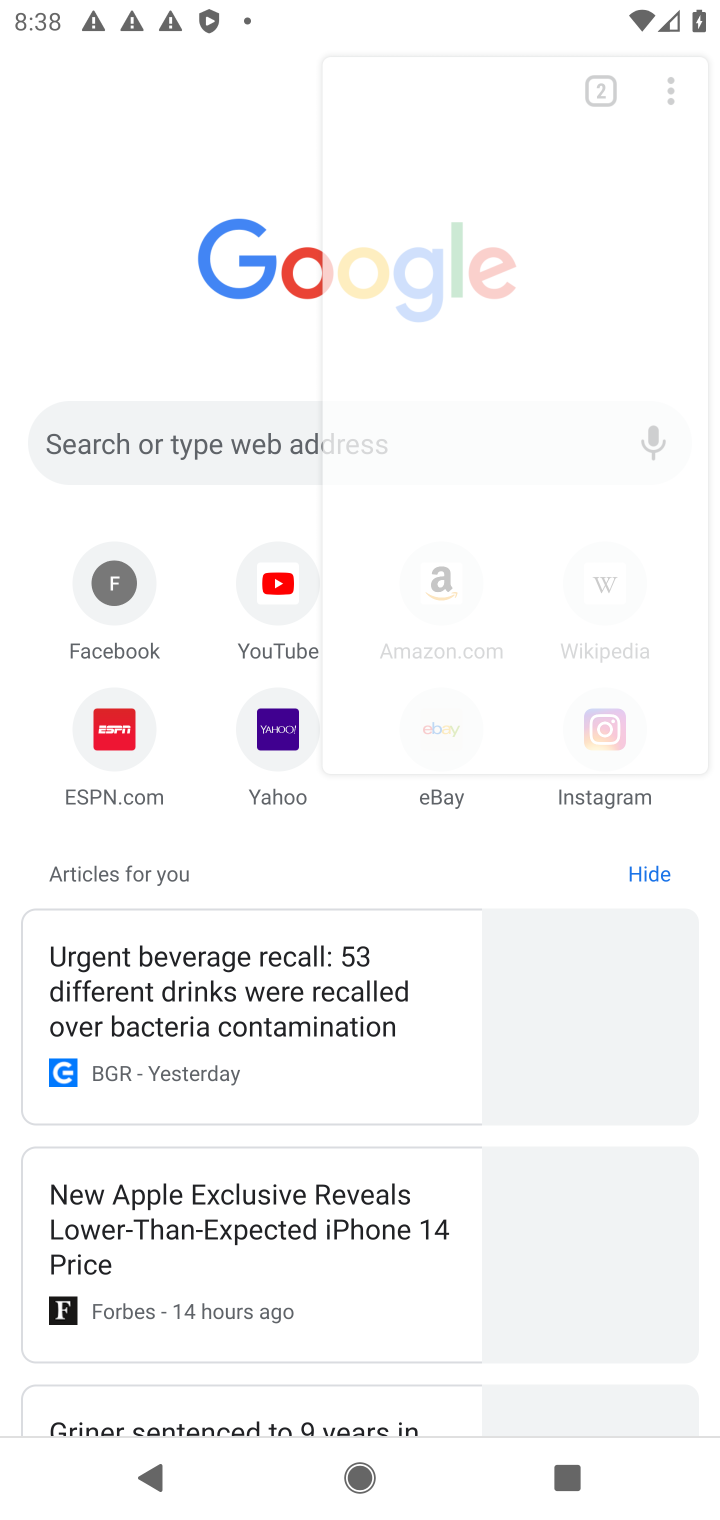
Step 28: drag from (625, 226) to (471, 732)
Your task to perform on an android device: toggle translation in the chrome app Image 29: 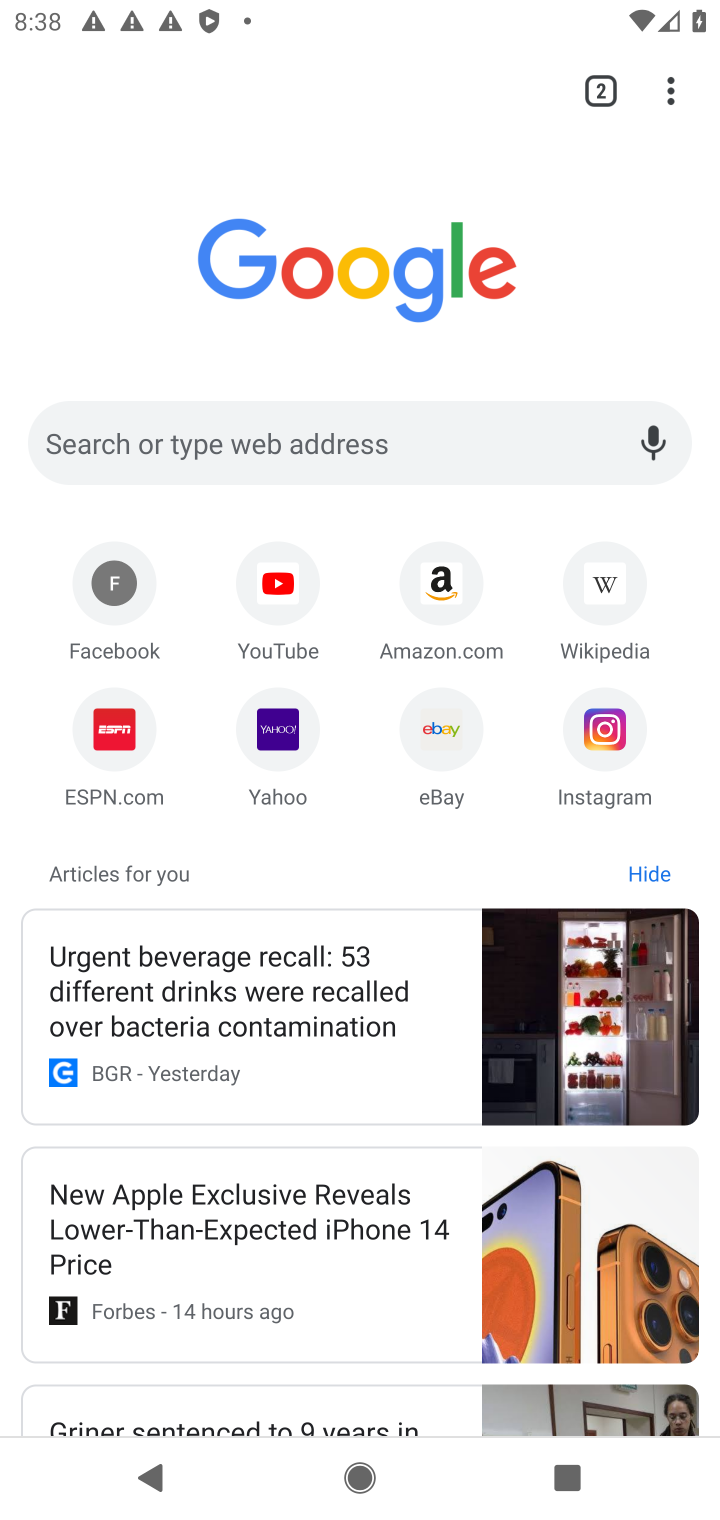
Step 29: drag from (669, 96) to (364, 767)
Your task to perform on an android device: toggle translation in the chrome app Image 30: 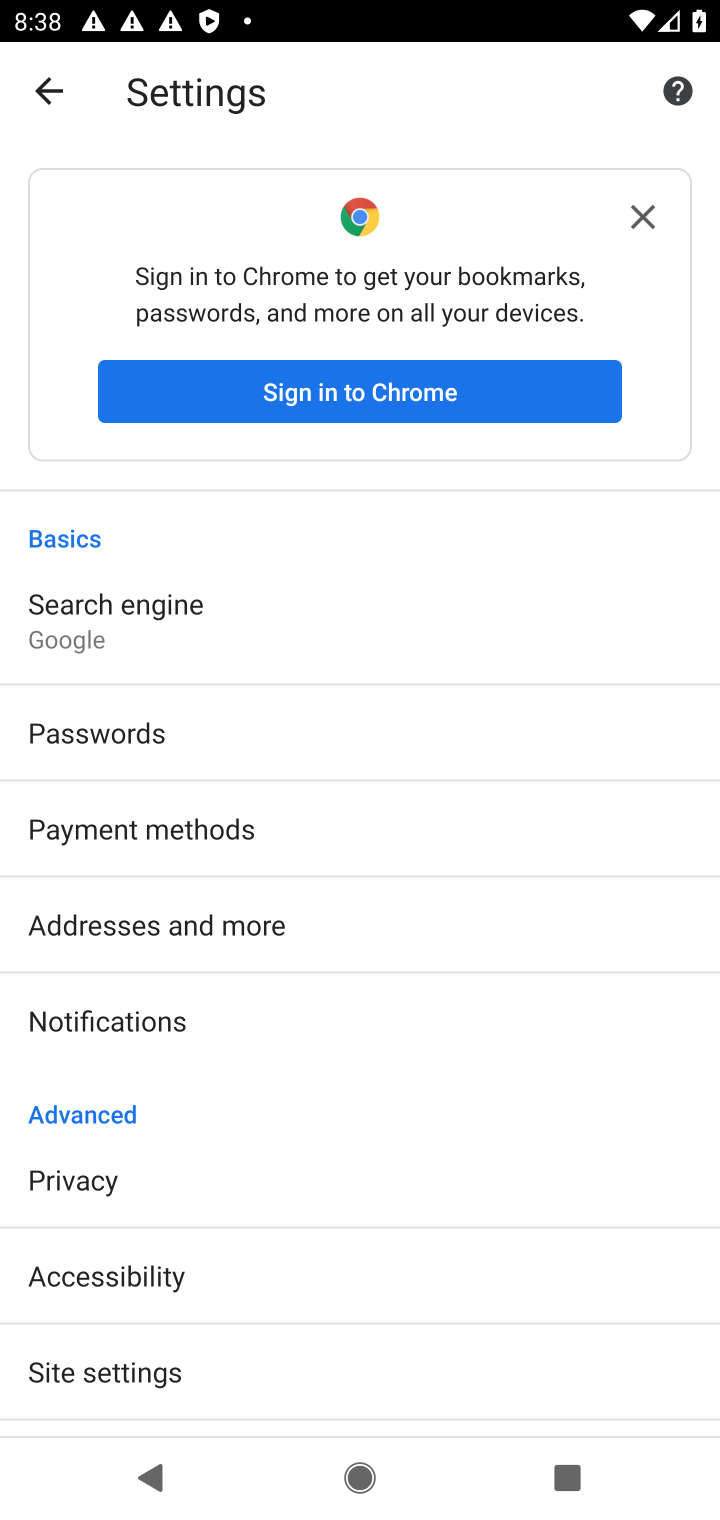
Step 30: drag from (229, 1353) to (433, 288)
Your task to perform on an android device: toggle translation in the chrome app Image 31: 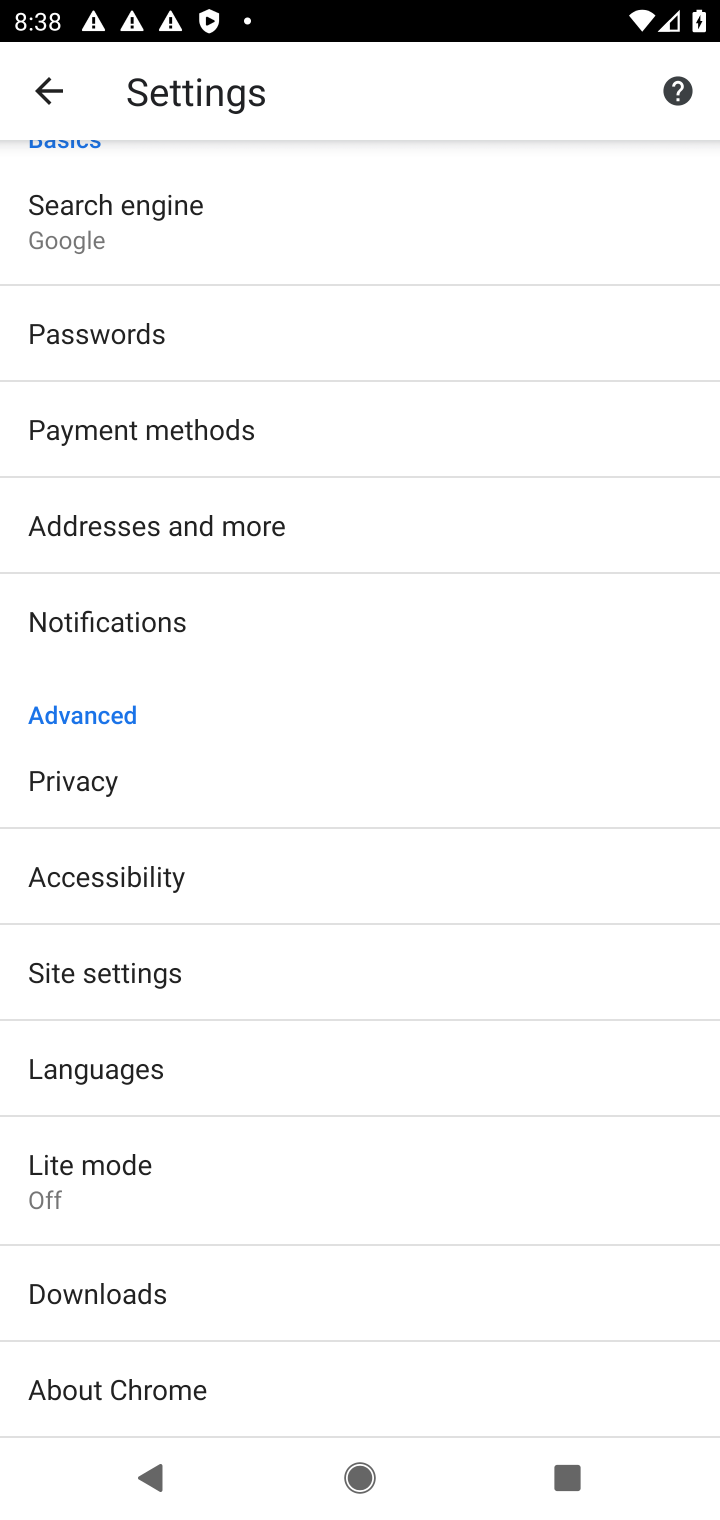
Step 31: click (151, 1065)
Your task to perform on an android device: toggle translation in the chrome app Image 32: 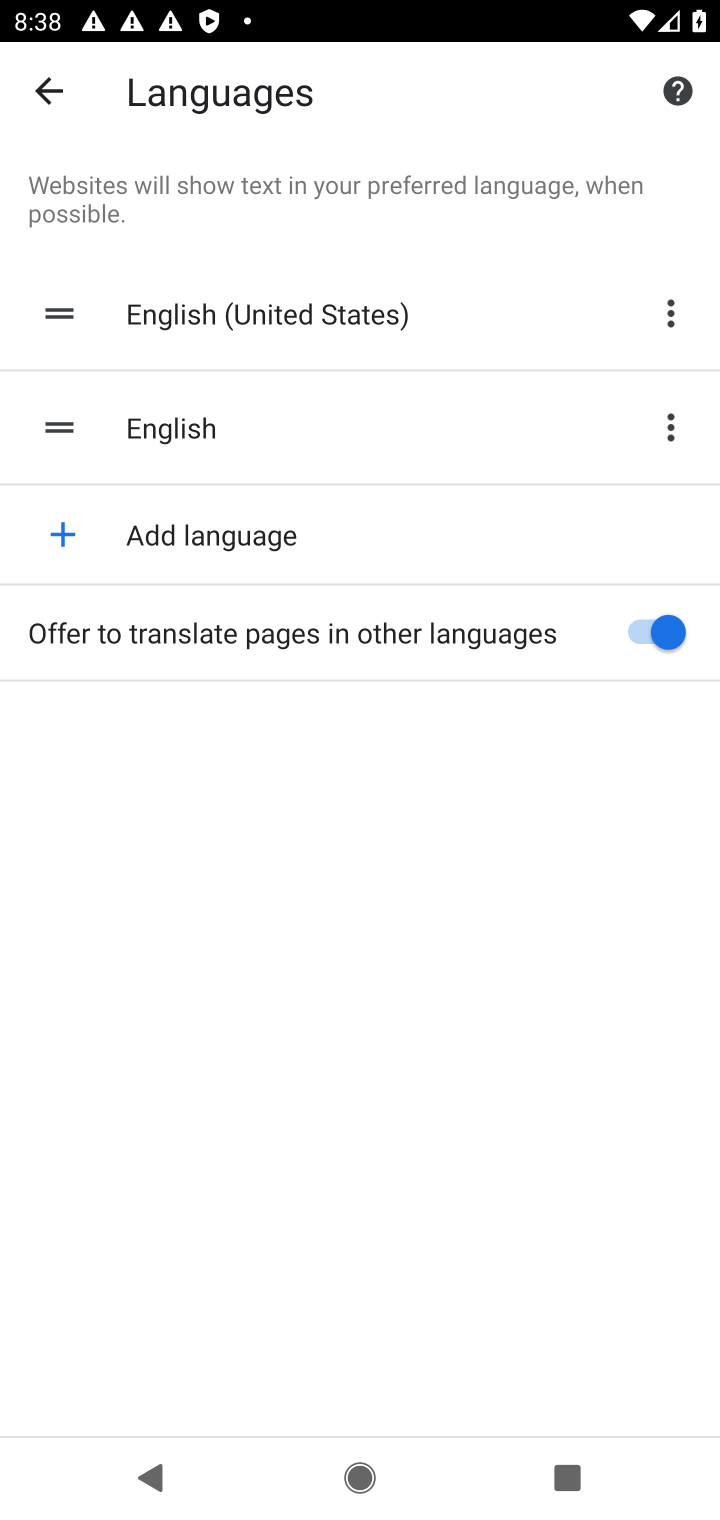
Step 32: click (658, 632)
Your task to perform on an android device: toggle translation in the chrome app Image 33: 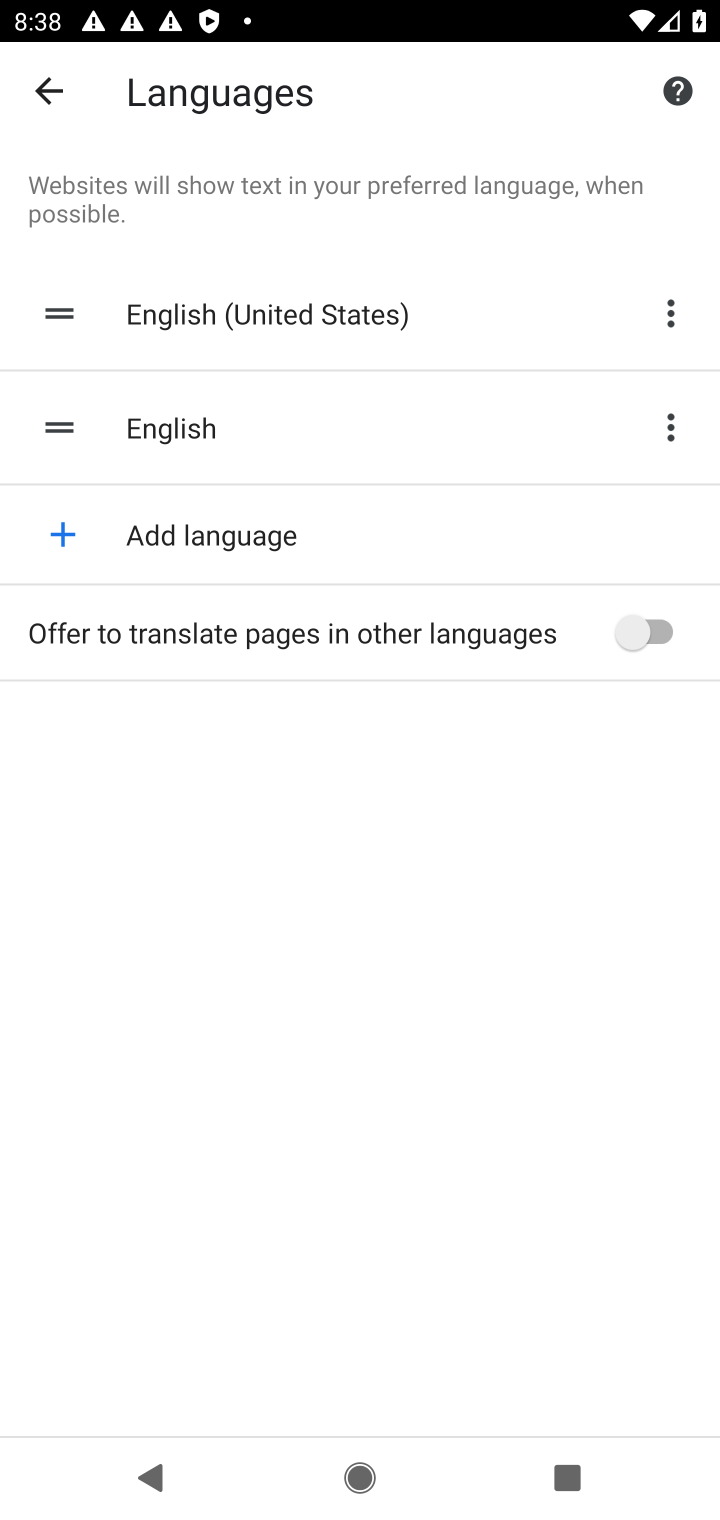
Step 33: task complete